Your task to perform on an android device: Open the gallery Image 0: 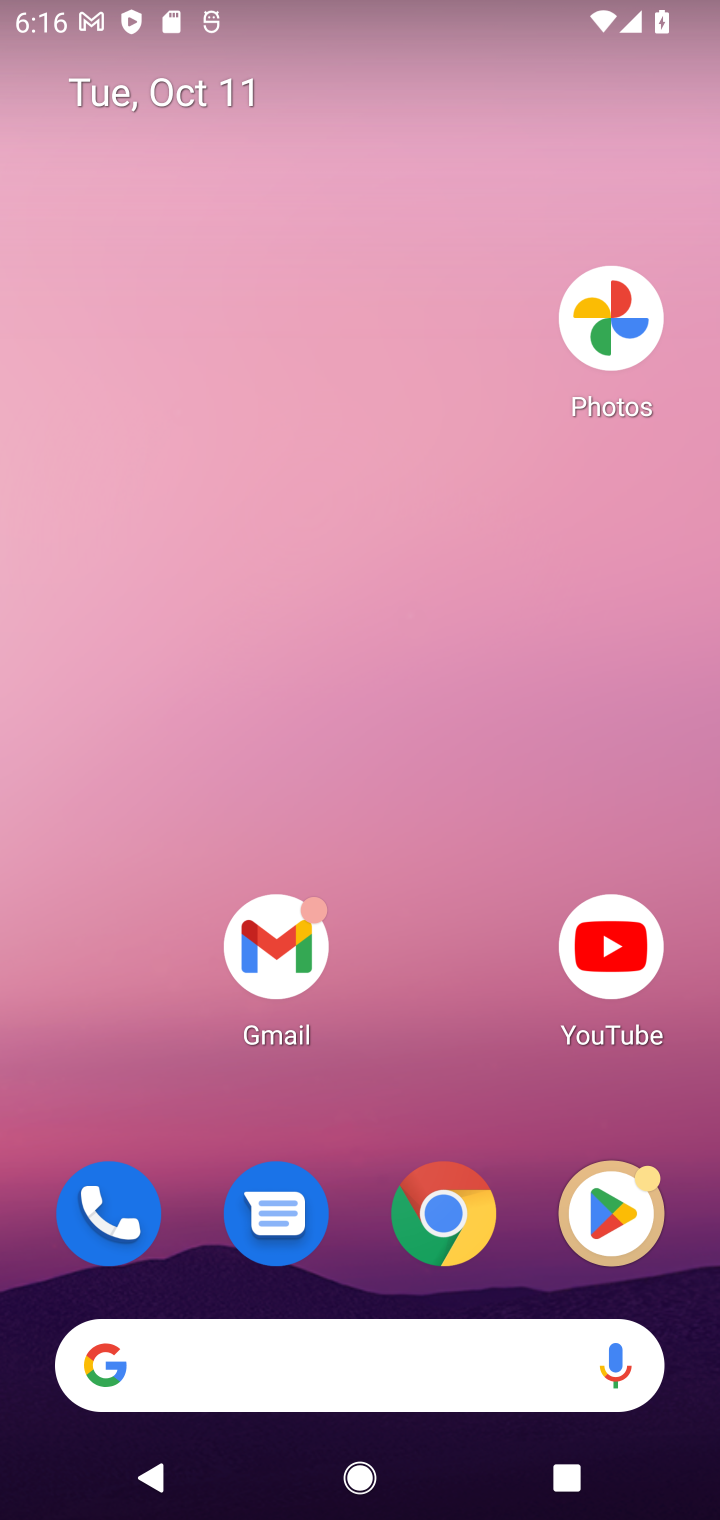
Step 0: press home button
Your task to perform on an android device: Open the gallery Image 1: 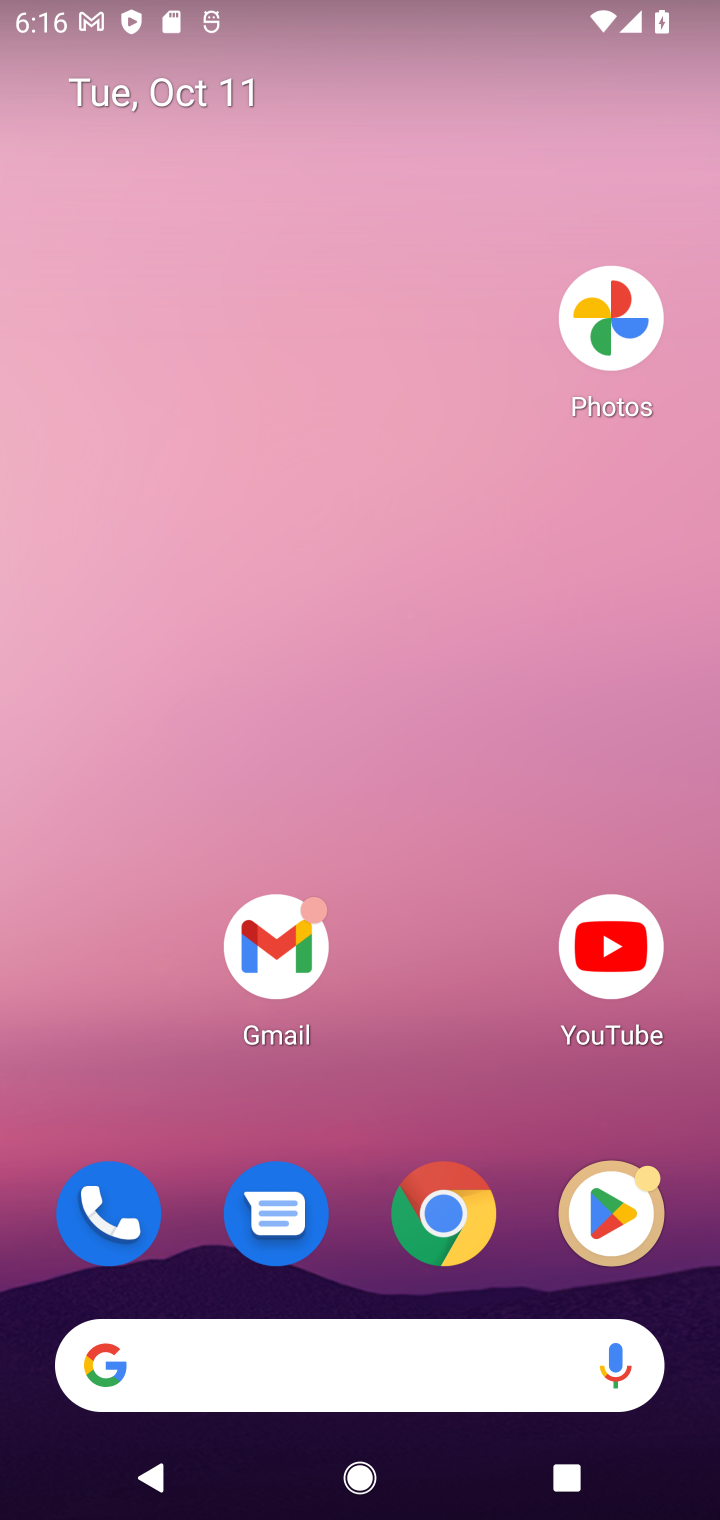
Step 1: drag from (368, 1262) to (427, 136)
Your task to perform on an android device: Open the gallery Image 2: 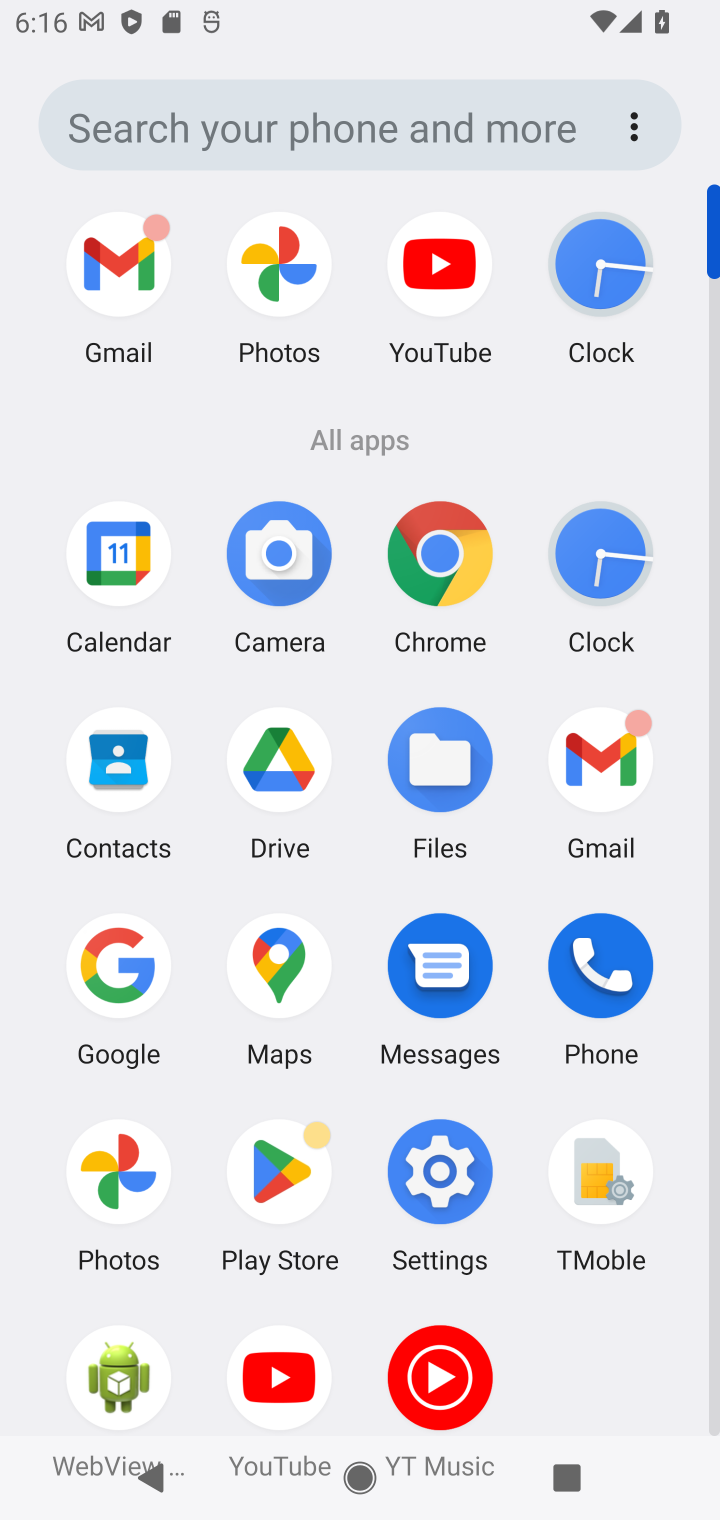
Step 2: click (433, 557)
Your task to perform on an android device: Open the gallery Image 3: 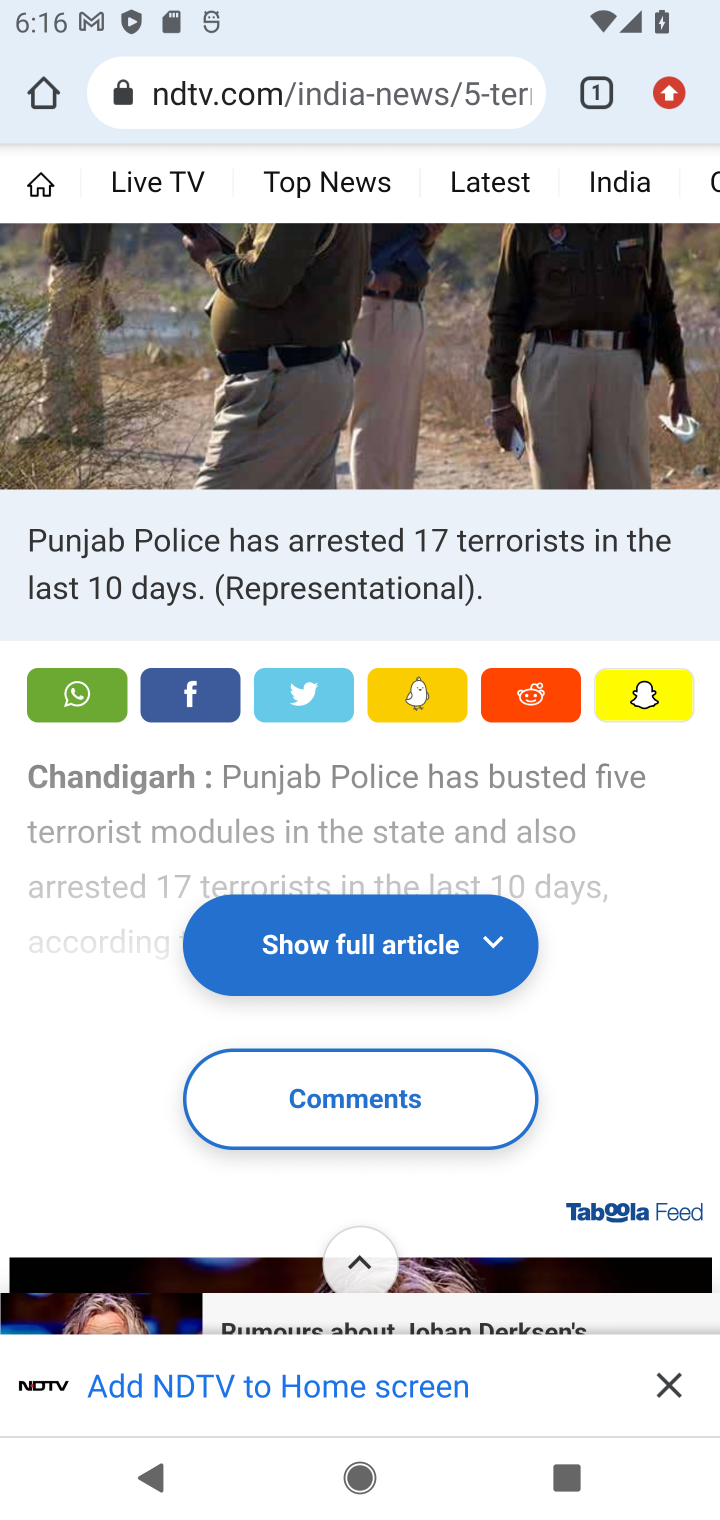
Step 3: click (363, 110)
Your task to perform on an android device: Open the gallery Image 4: 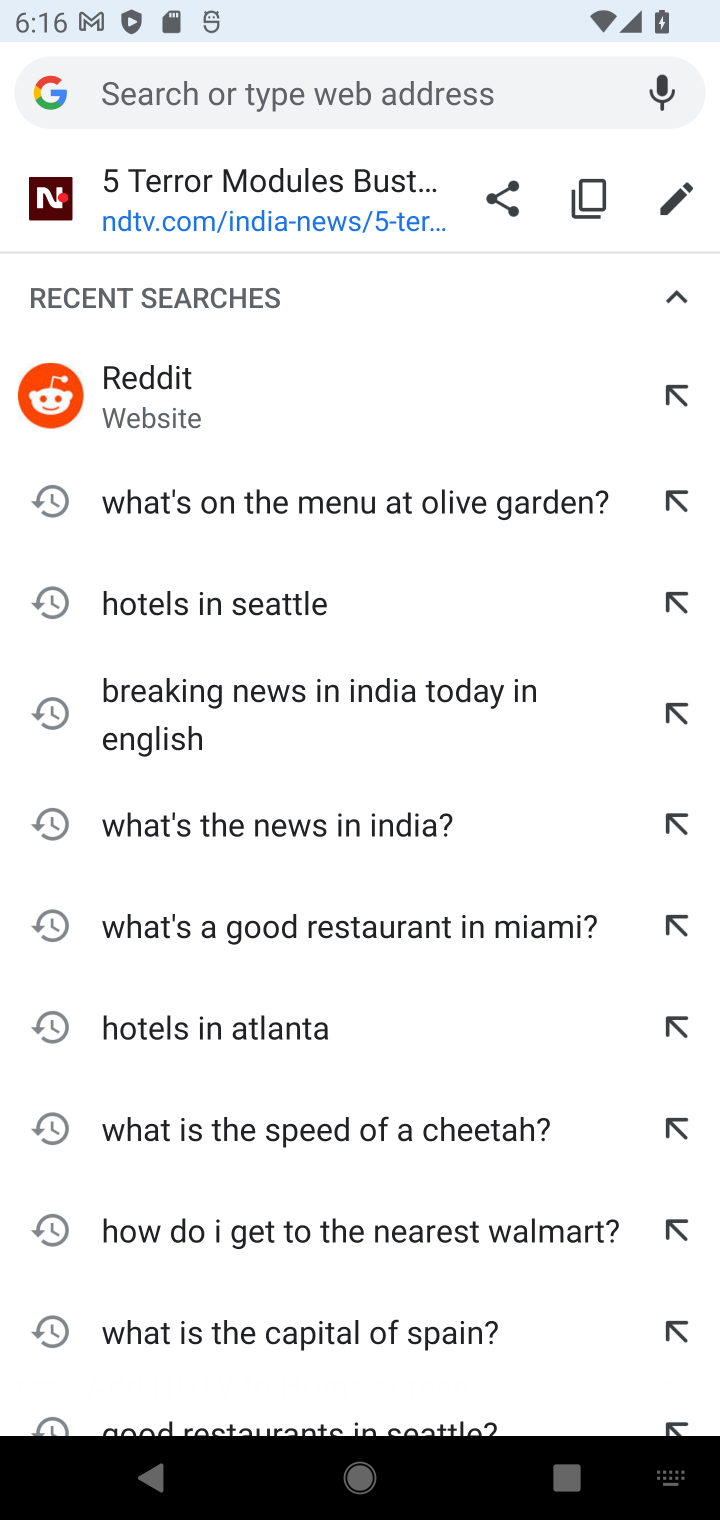
Step 4: type "What's the weather like in Paris?"
Your task to perform on an android device: Open the gallery Image 5: 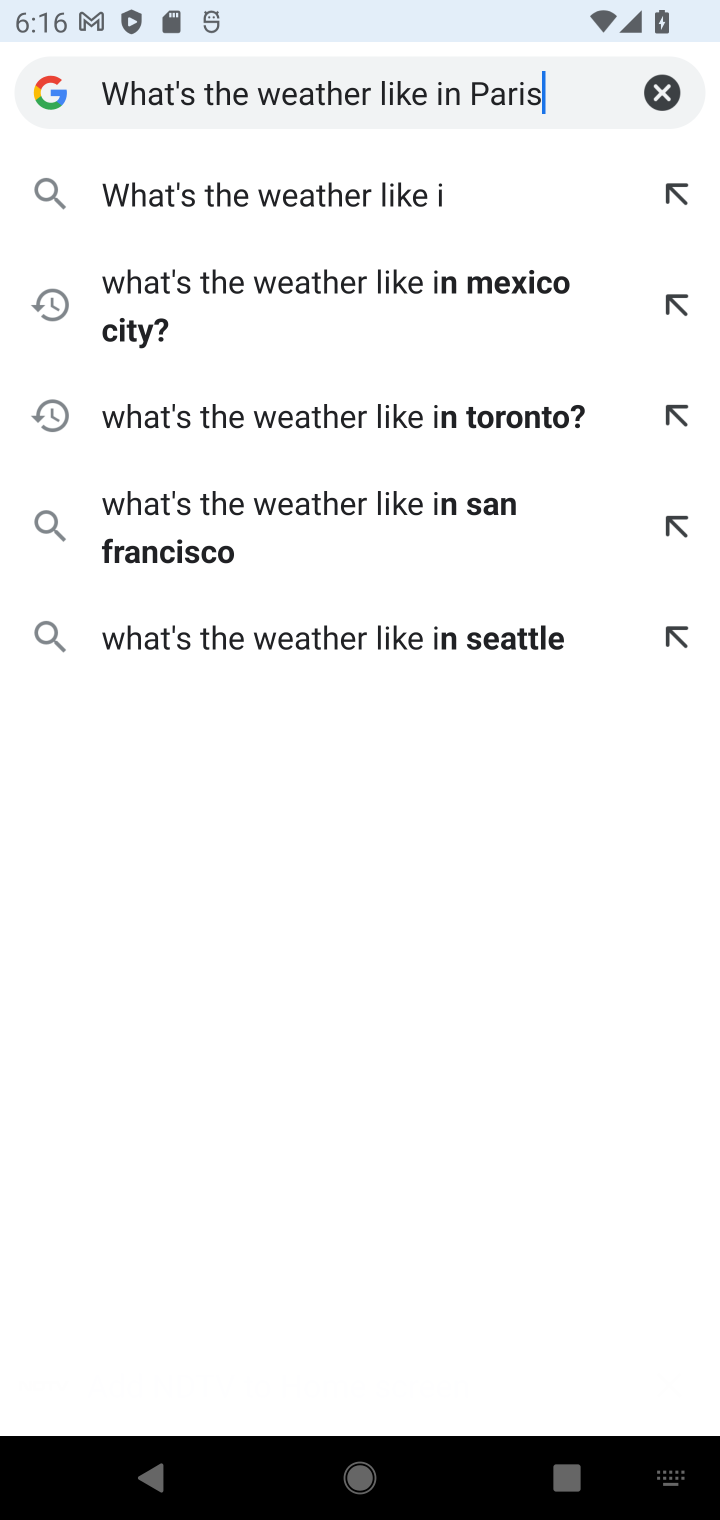
Step 5: type ""
Your task to perform on an android device: Open the gallery Image 6: 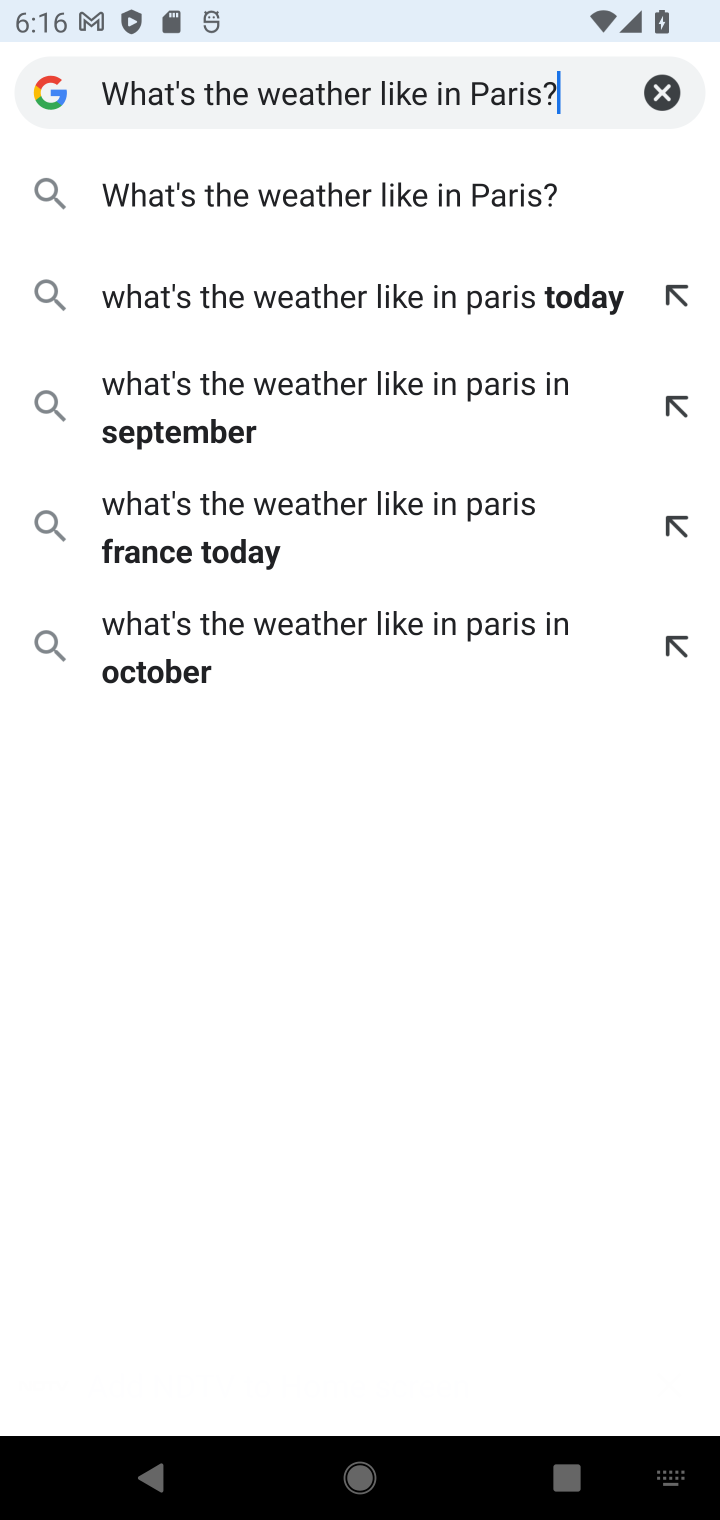
Step 6: press enter
Your task to perform on an android device: Open the gallery Image 7: 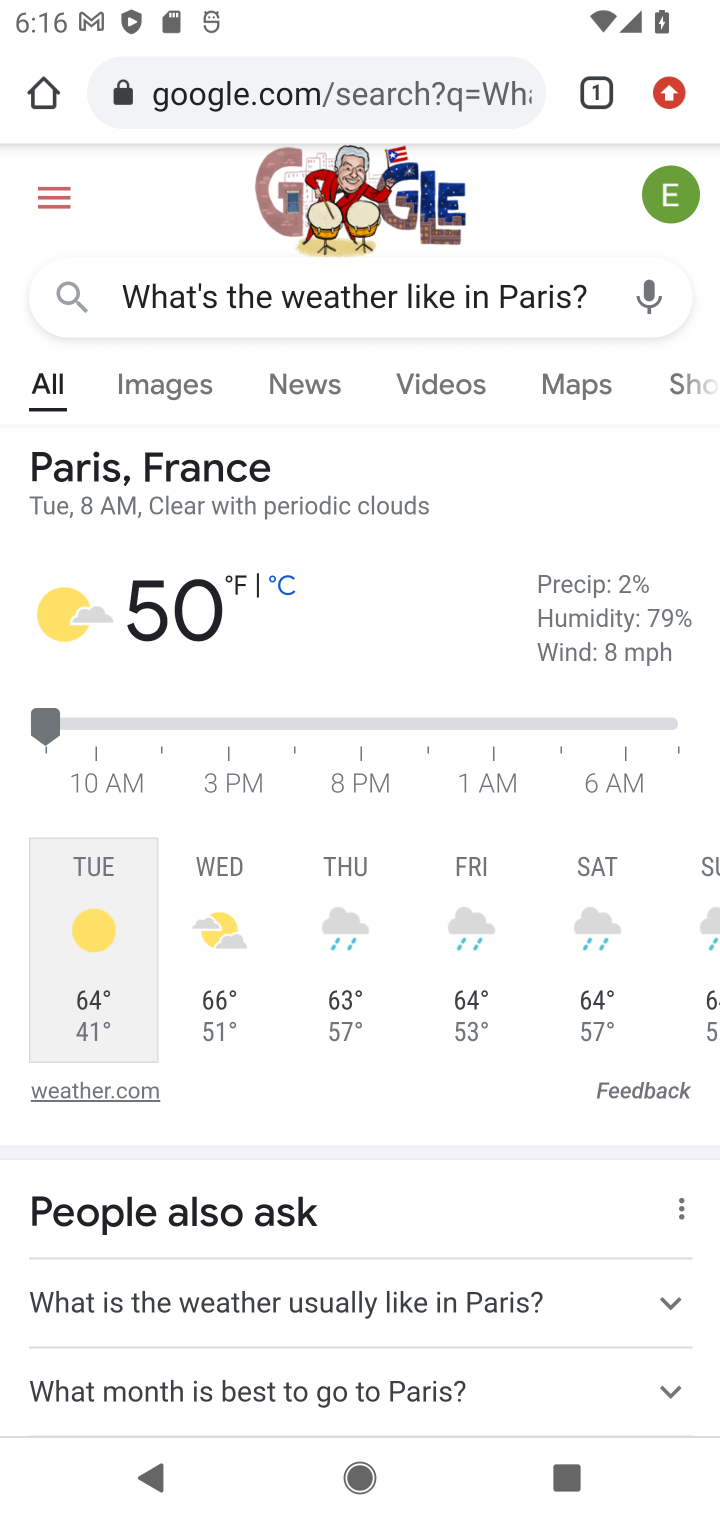
Step 7: drag from (55, 729) to (142, 722)
Your task to perform on an android device: Open the gallery Image 8: 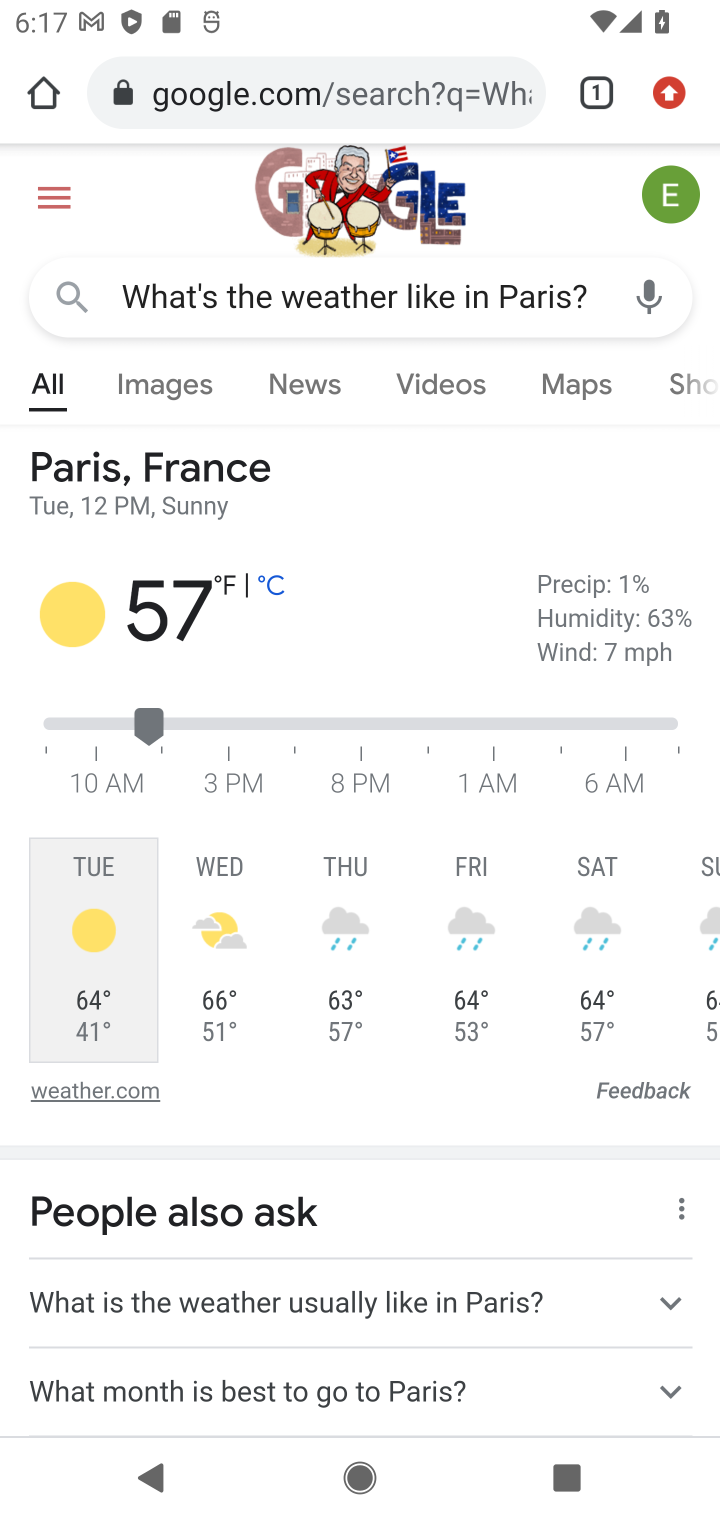
Step 8: drag from (140, 722) to (37, 707)
Your task to perform on an android device: Open the gallery Image 9: 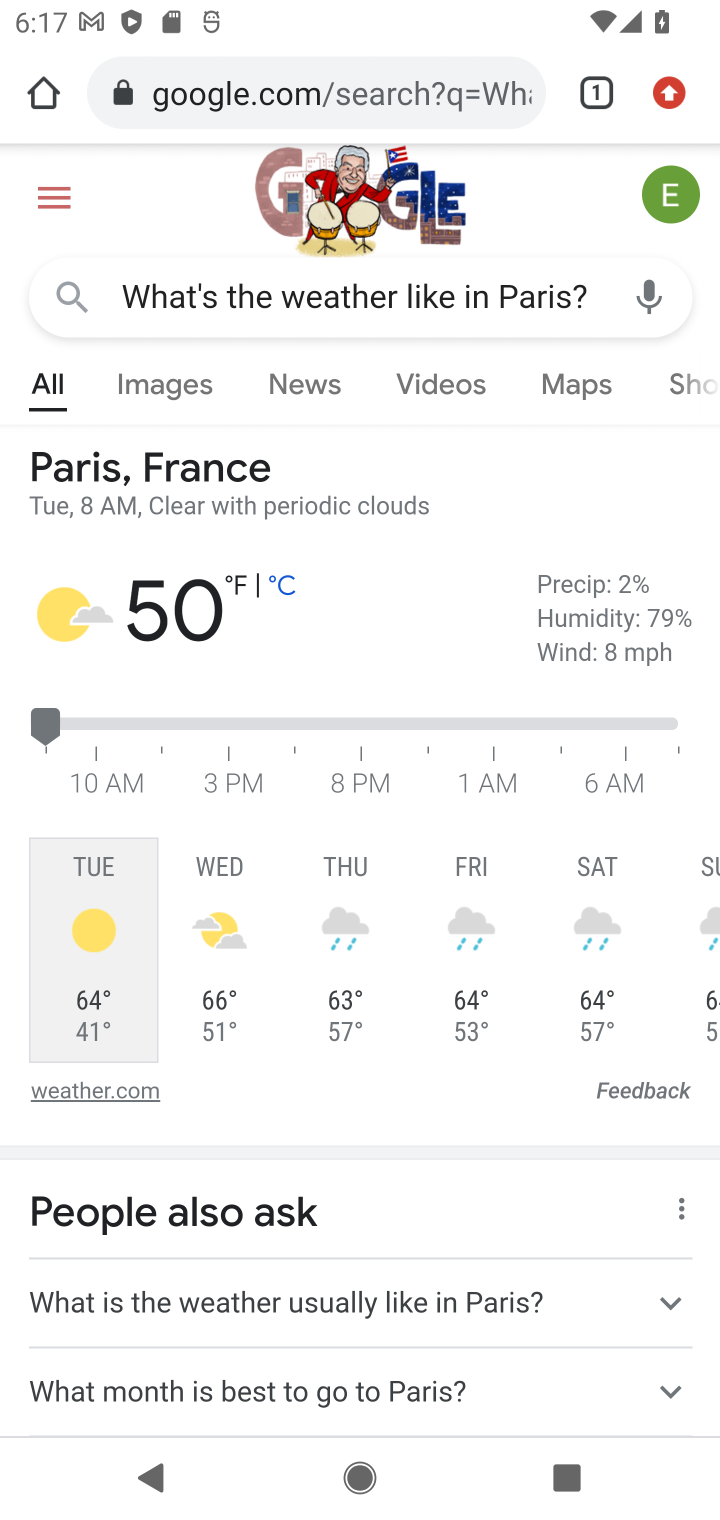
Step 9: press home button
Your task to perform on an android device: Open the gallery Image 10: 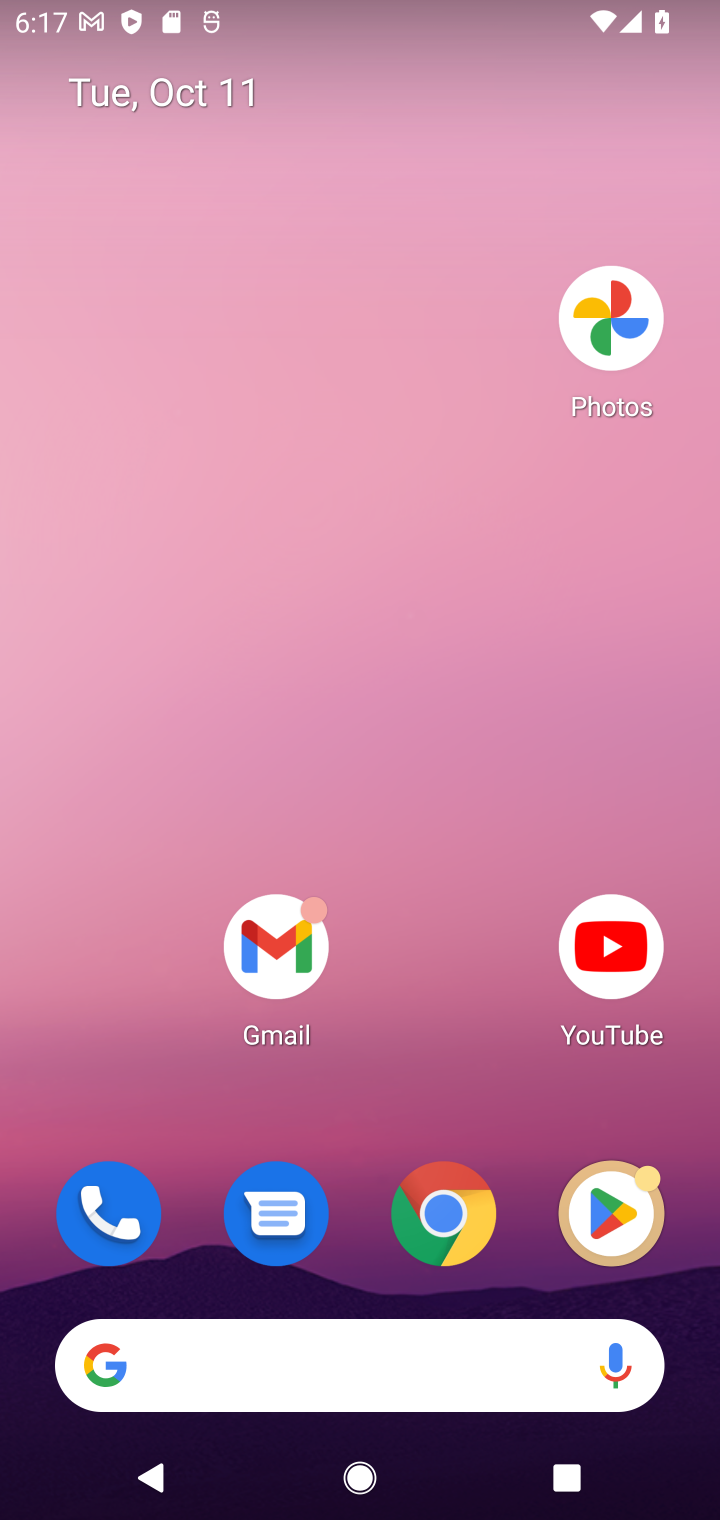
Step 10: drag from (388, 1147) to (468, 104)
Your task to perform on an android device: Open the gallery Image 11: 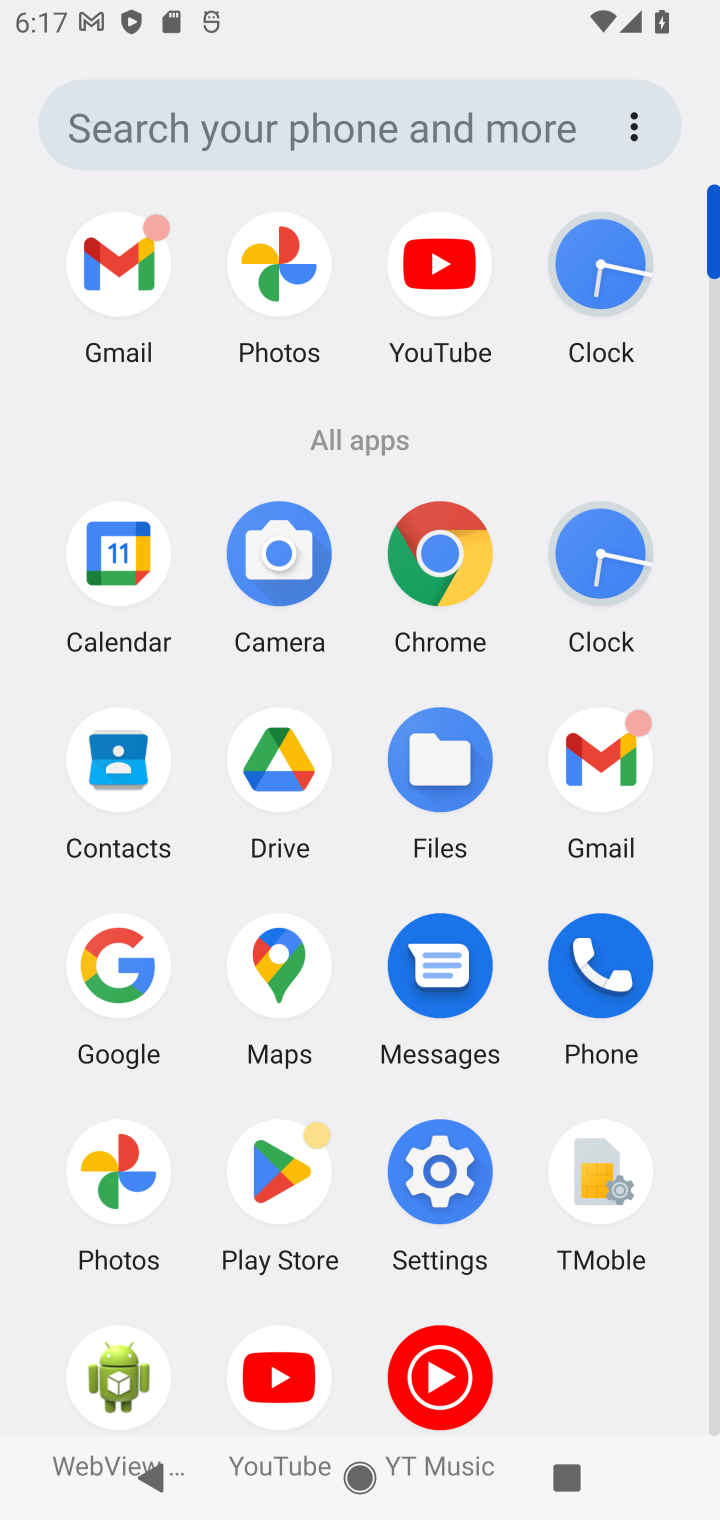
Step 11: click (388, 751)
Your task to perform on an android device: Open the gallery Image 12: 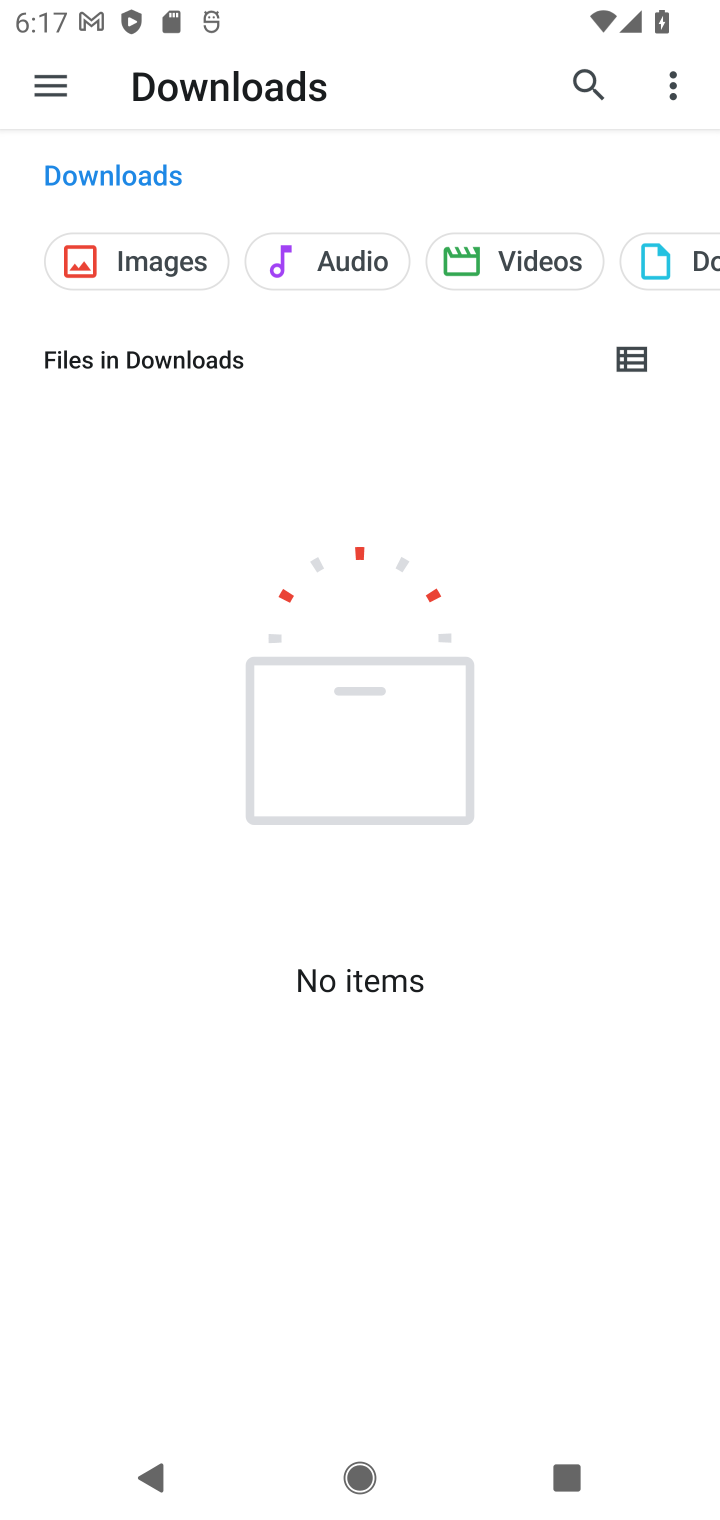
Step 12: click (119, 274)
Your task to perform on an android device: Open the gallery Image 13: 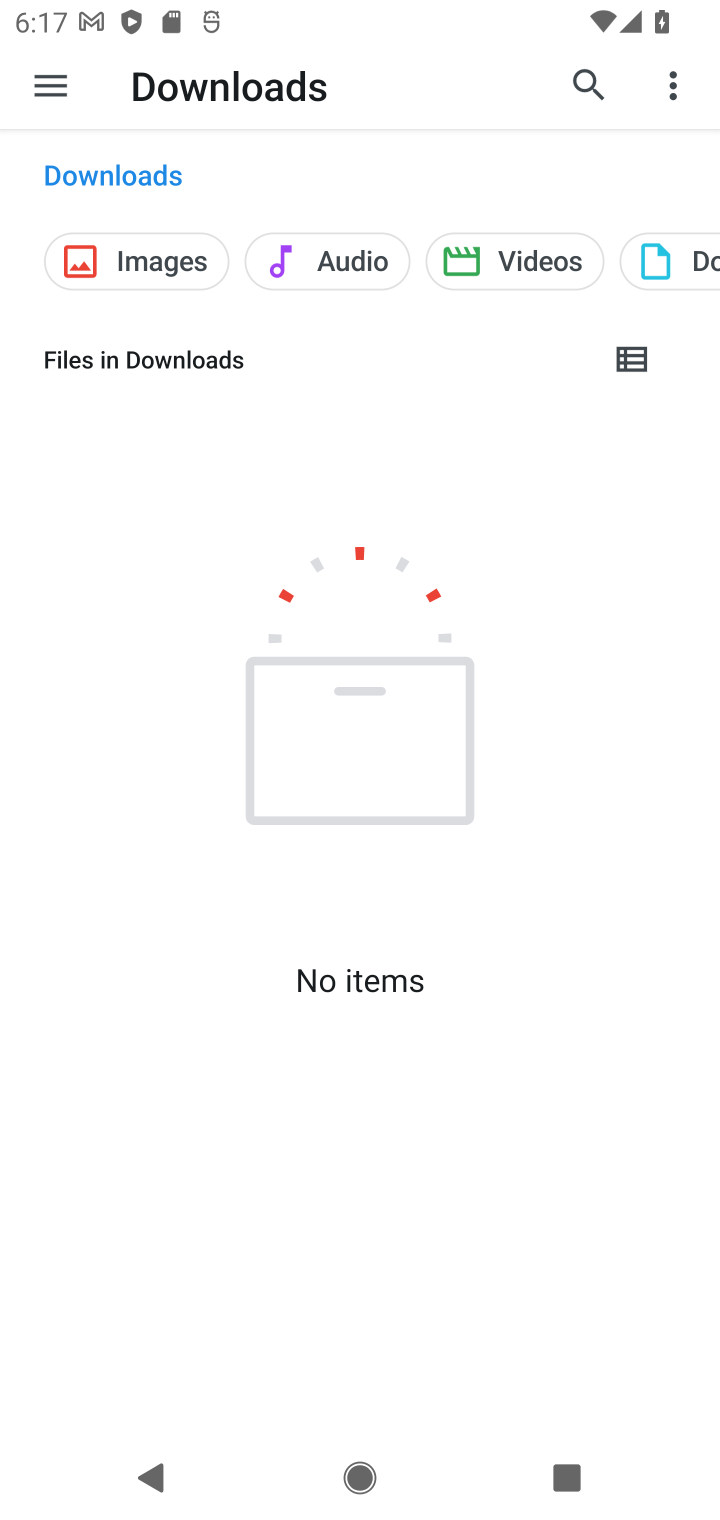
Step 13: click (363, 264)
Your task to perform on an android device: Open the gallery Image 14: 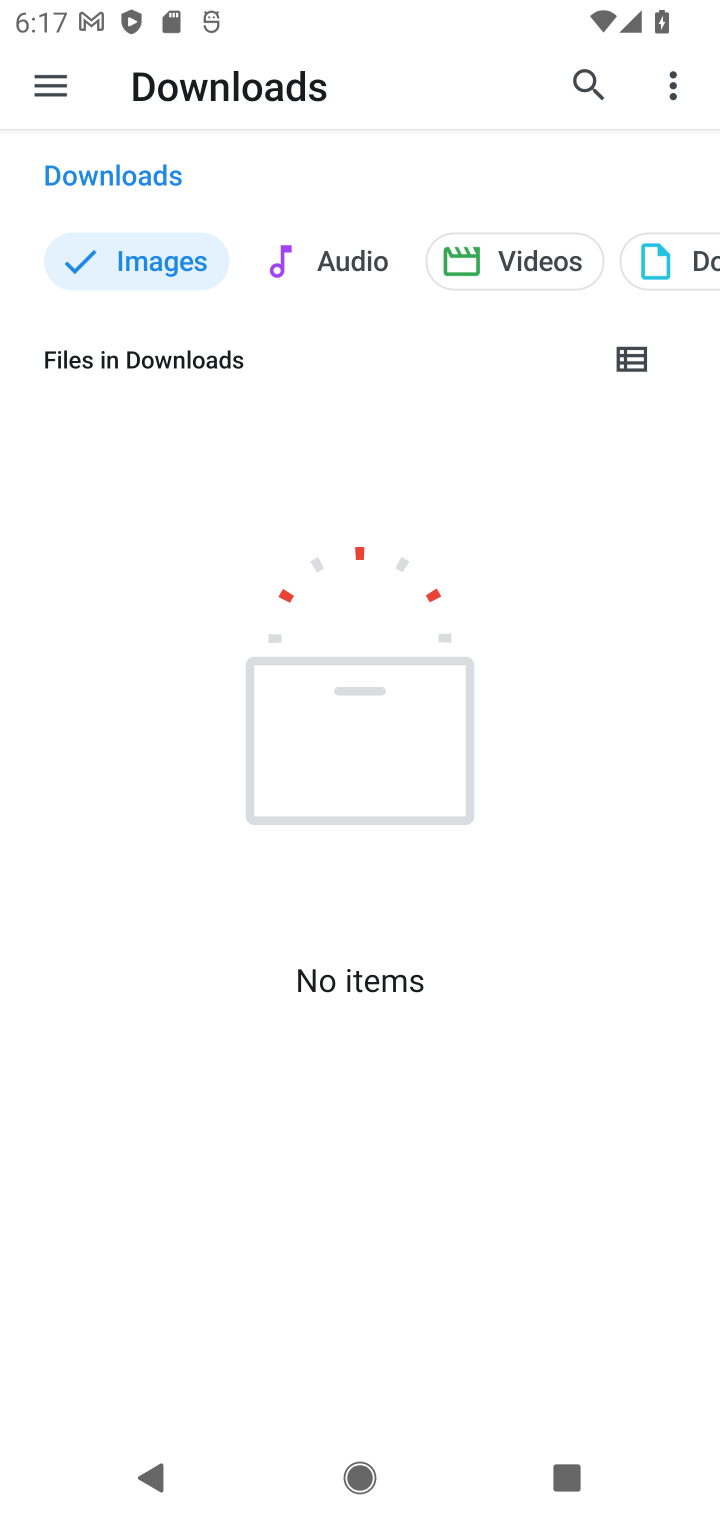
Step 14: click (509, 264)
Your task to perform on an android device: Open the gallery Image 15: 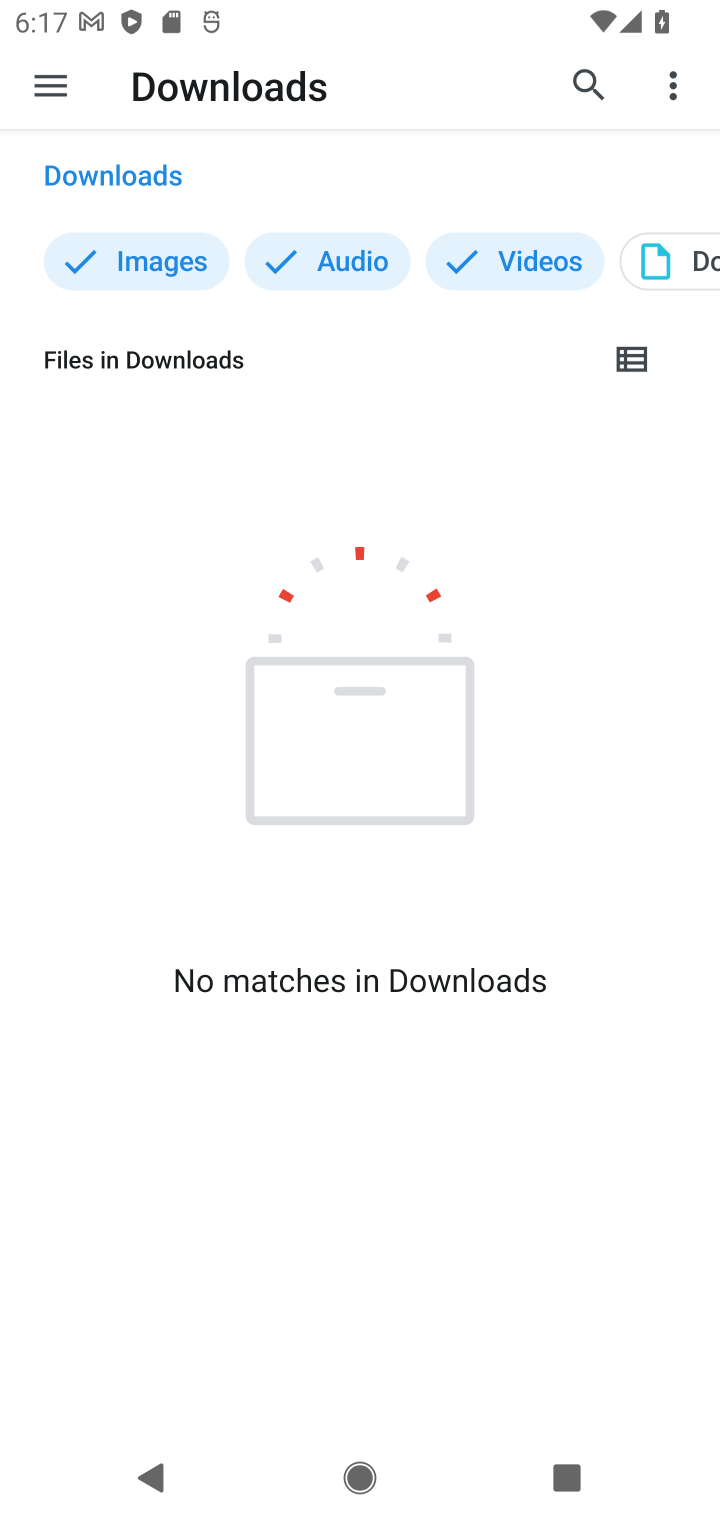
Step 15: press back button
Your task to perform on an android device: Open the gallery Image 16: 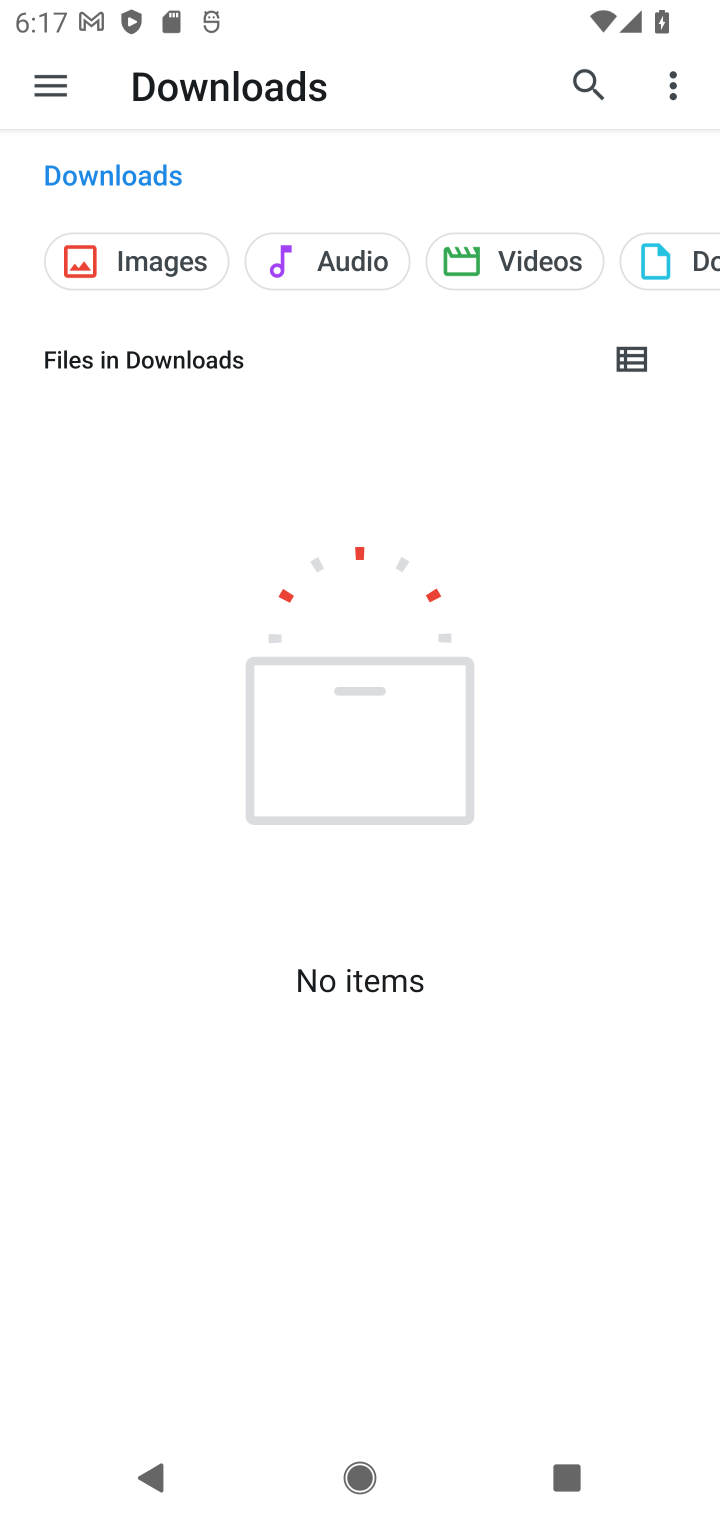
Step 16: press back button
Your task to perform on an android device: Open the gallery Image 17: 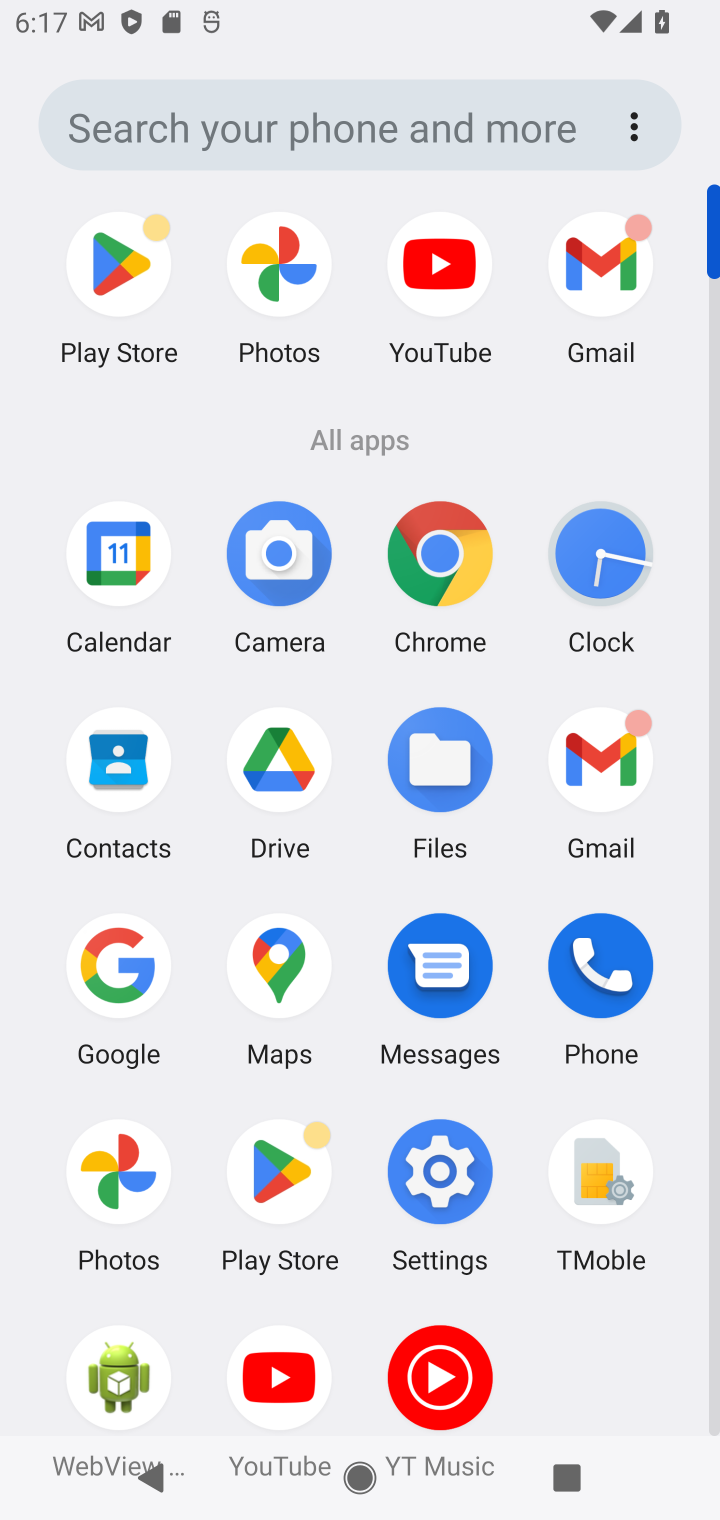
Step 17: click (277, 261)
Your task to perform on an android device: Open the gallery Image 18: 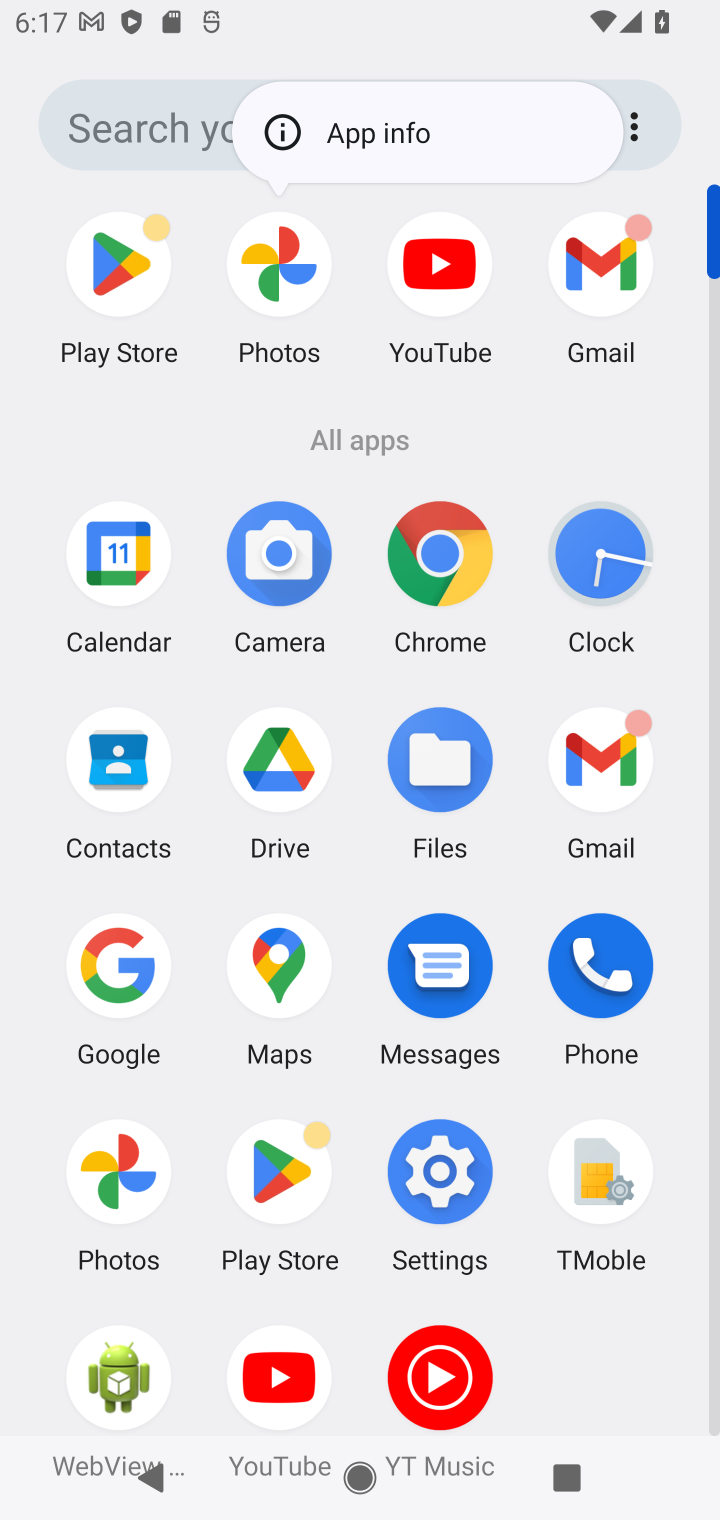
Step 18: click (296, 309)
Your task to perform on an android device: Open the gallery Image 19: 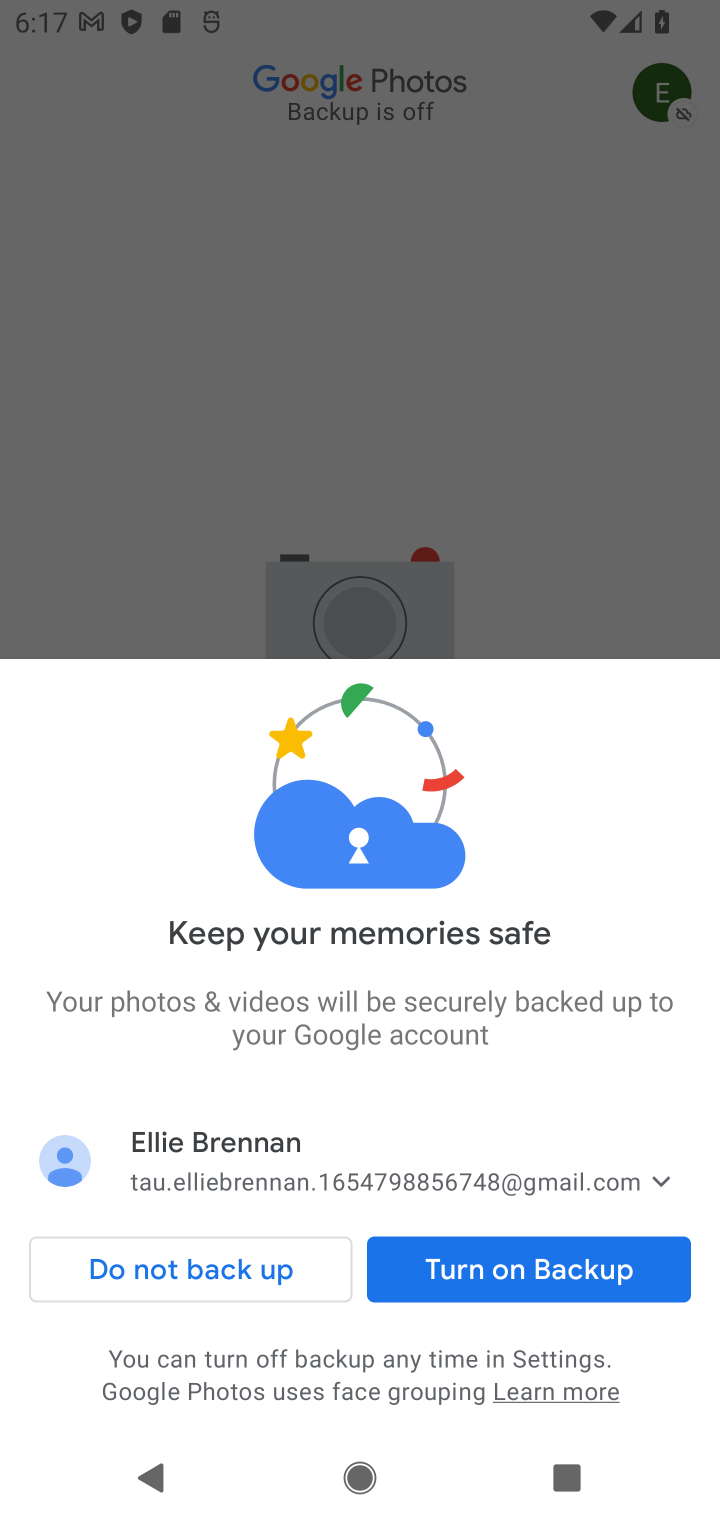
Step 19: click (247, 1248)
Your task to perform on an android device: Open the gallery Image 20: 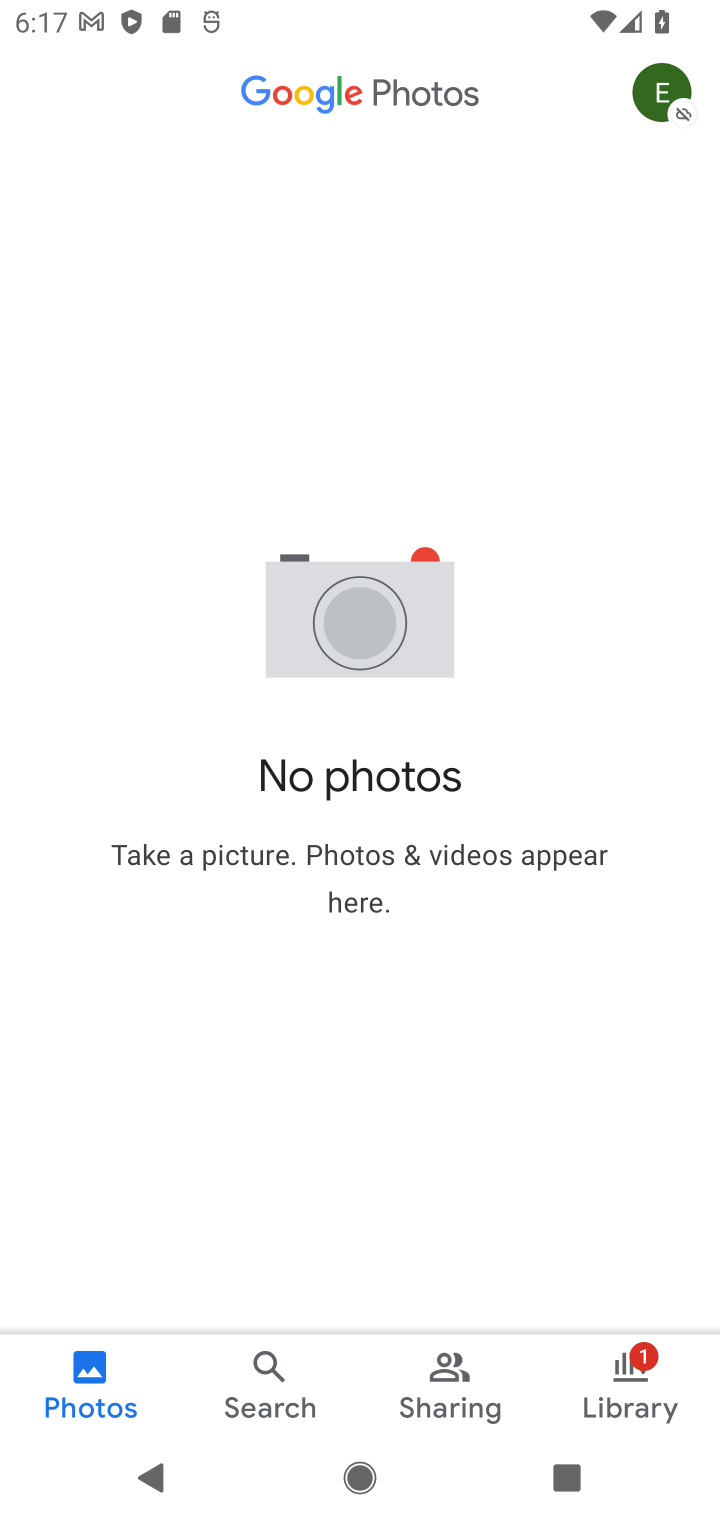
Step 20: click (242, 1417)
Your task to perform on an android device: Open the gallery Image 21: 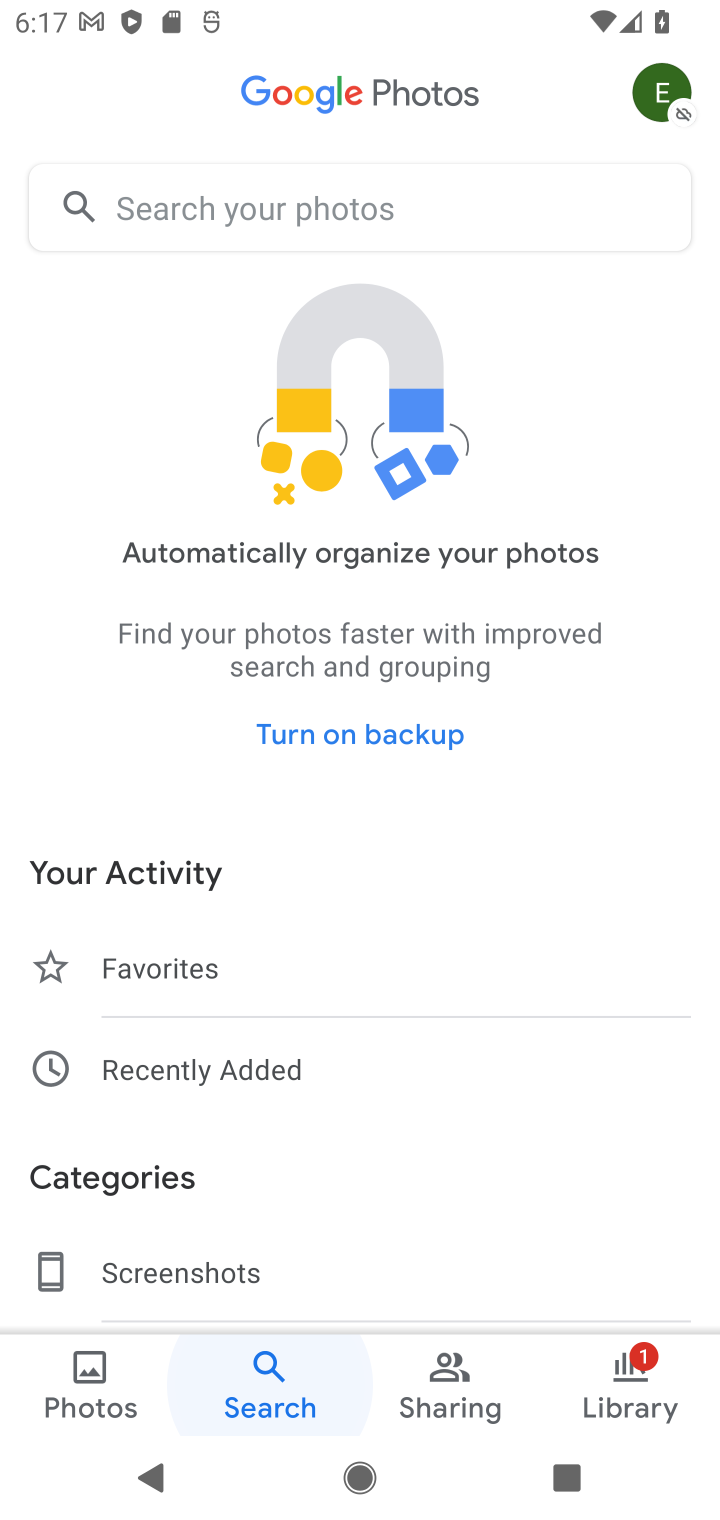
Step 21: click (478, 1389)
Your task to perform on an android device: Open the gallery Image 22: 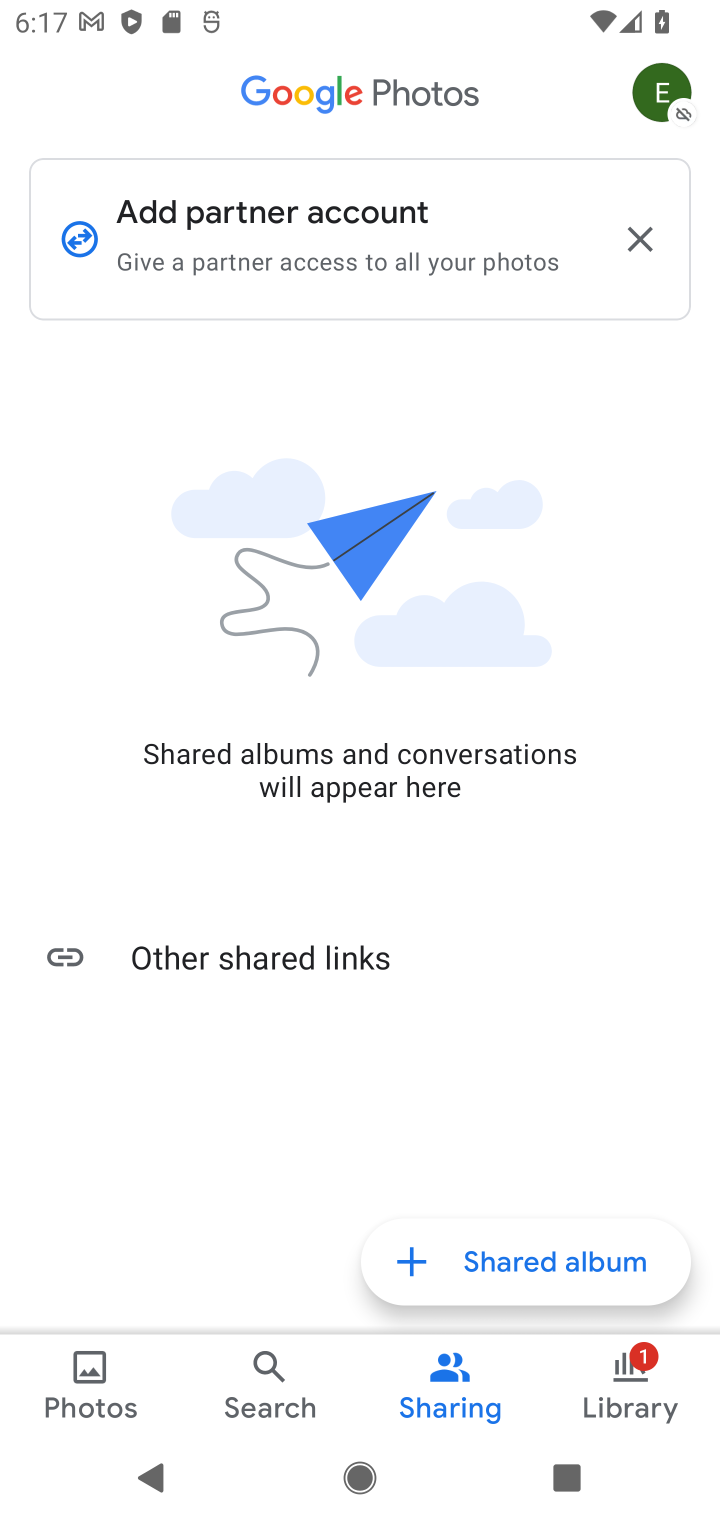
Step 22: click (489, 1373)
Your task to perform on an android device: Open the gallery Image 23: 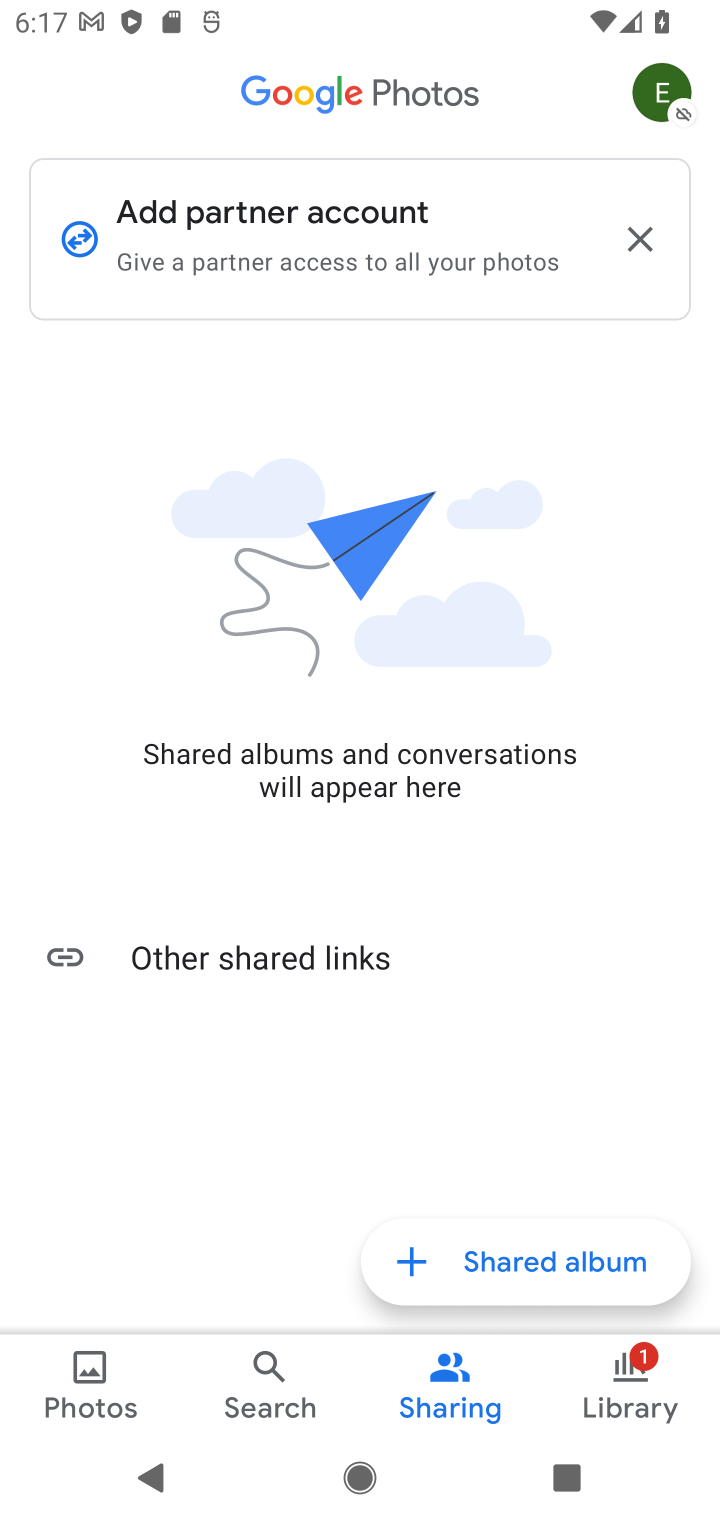
Step 23: click (628, 1364)
Your task to perform on an android device: Open the gallery Image 24: 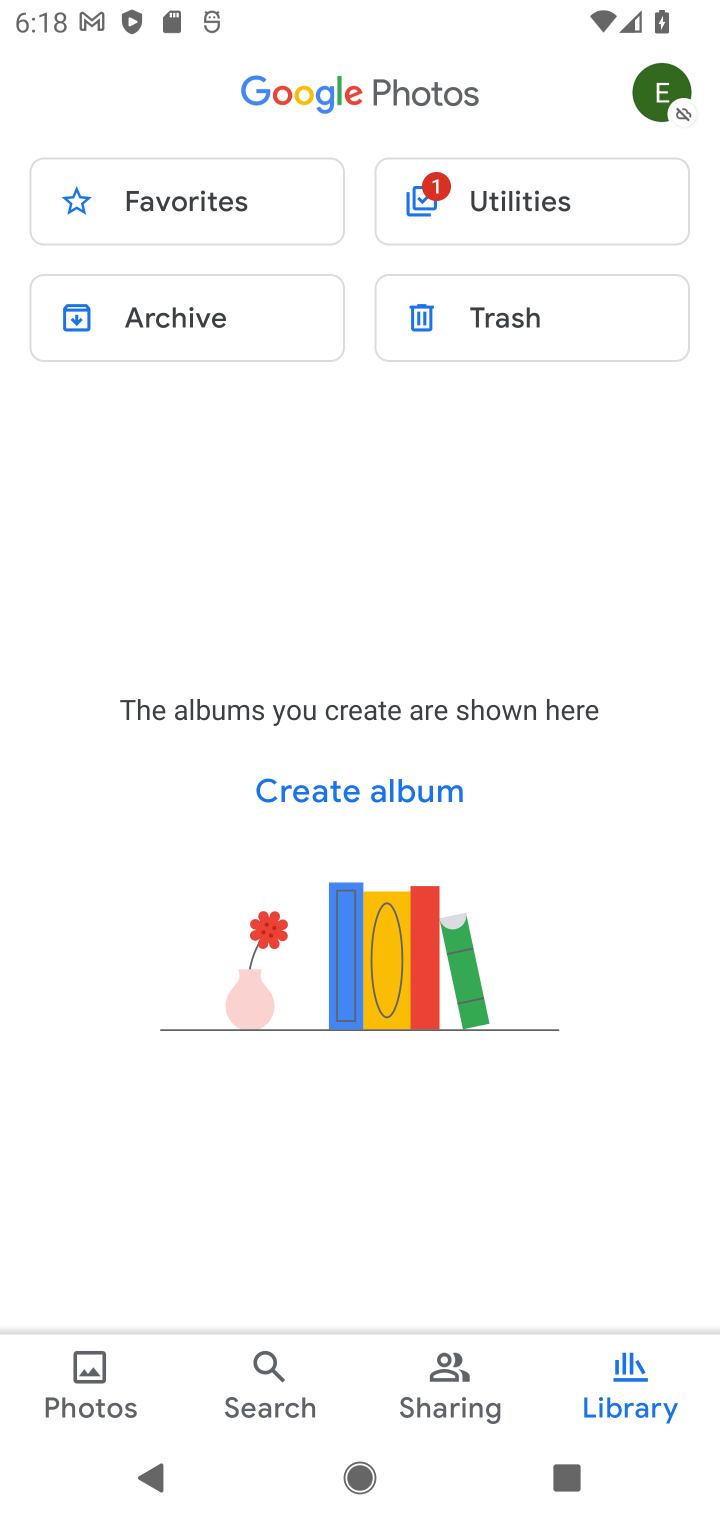
Step 24: click (502, 189)
Your task to perform on an android device: Open the gallery Image 25: 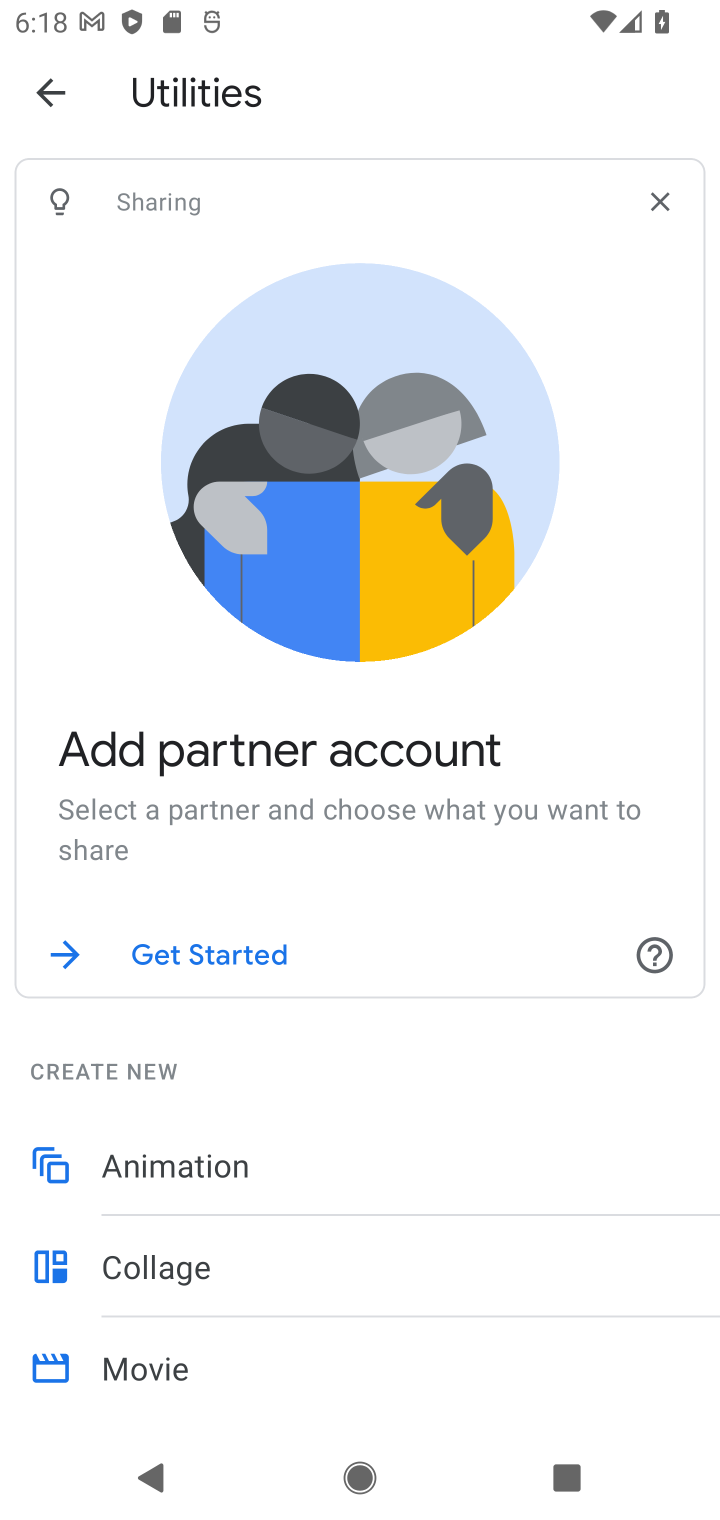
Step 25: drag from (447, 641) to (437, 187)
Your task to perform on an android device: Open the gallery Image 26: 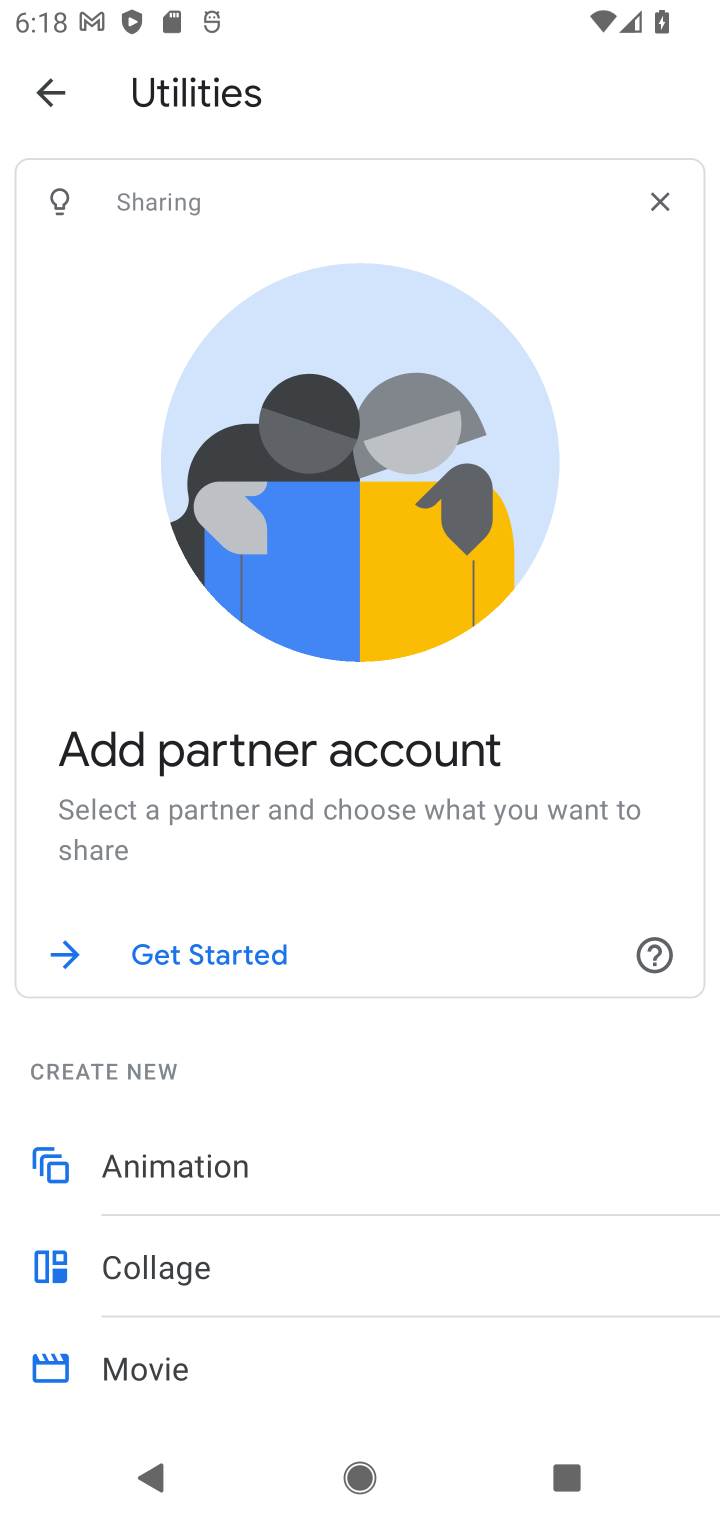
Step 26: drag from (393, 820) to (396, 70)
Your task to perform on an android device: Open the gallery Image 27: 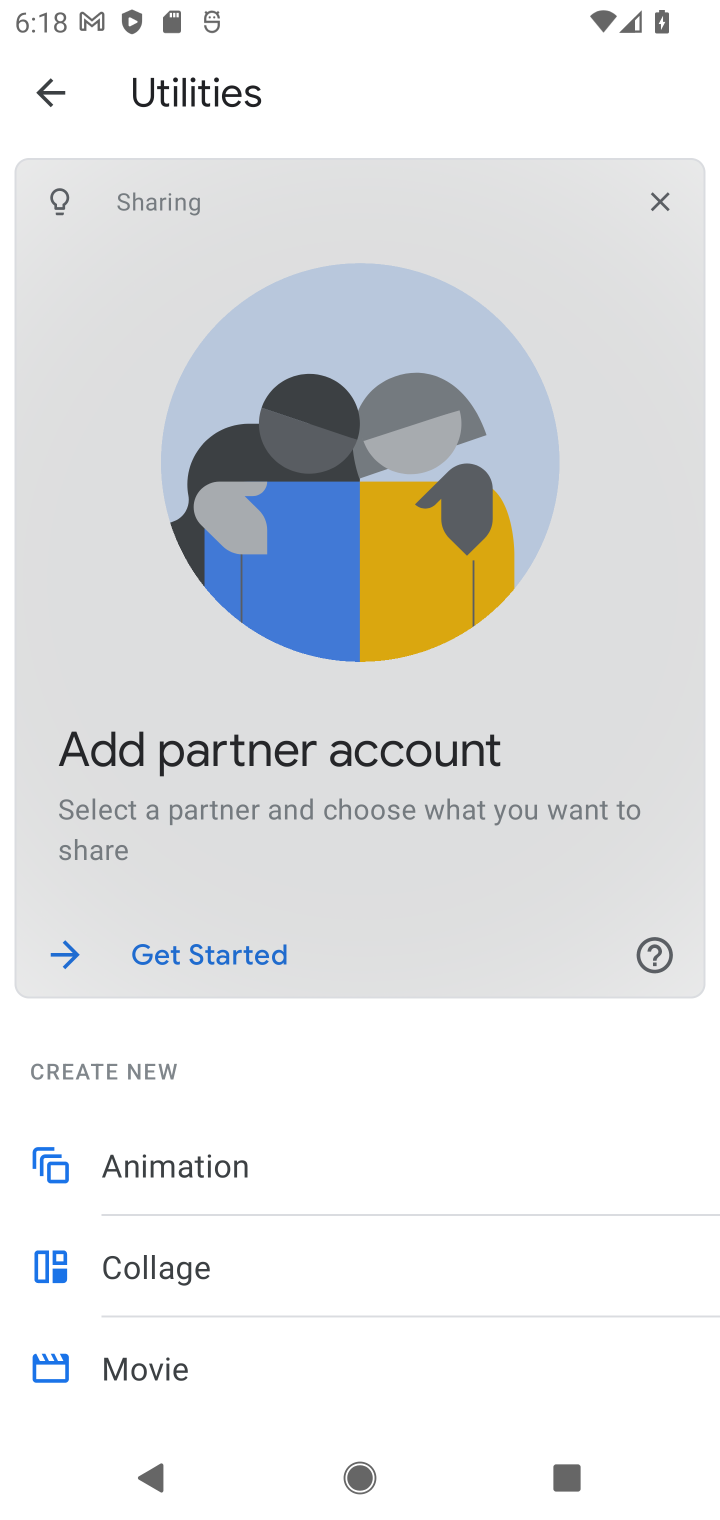
Step 27: click (422, 85)
Your task to perform on an android device: Open the gallery Image 28: 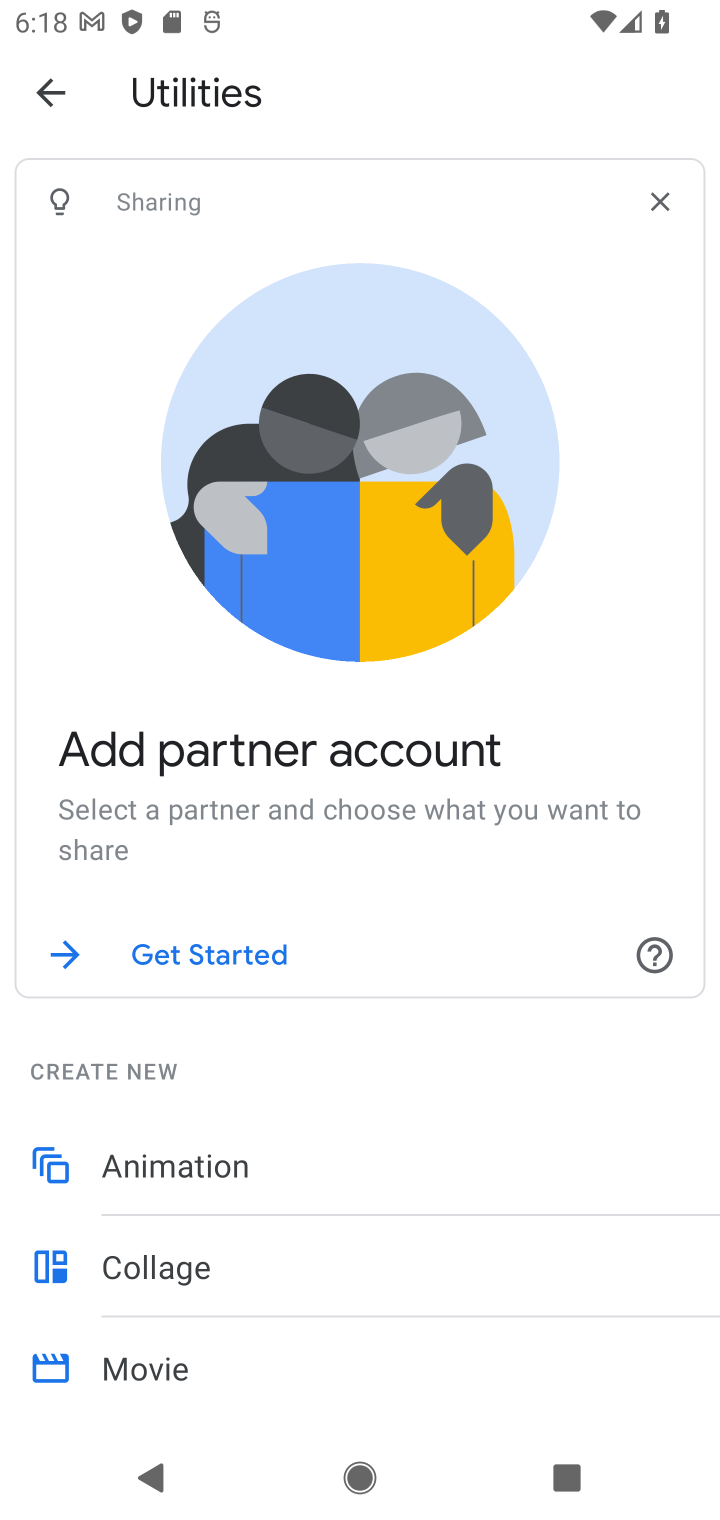
Step 28: click (50, 90)
Your task to perform on an android device: Open the gallery Image 29: 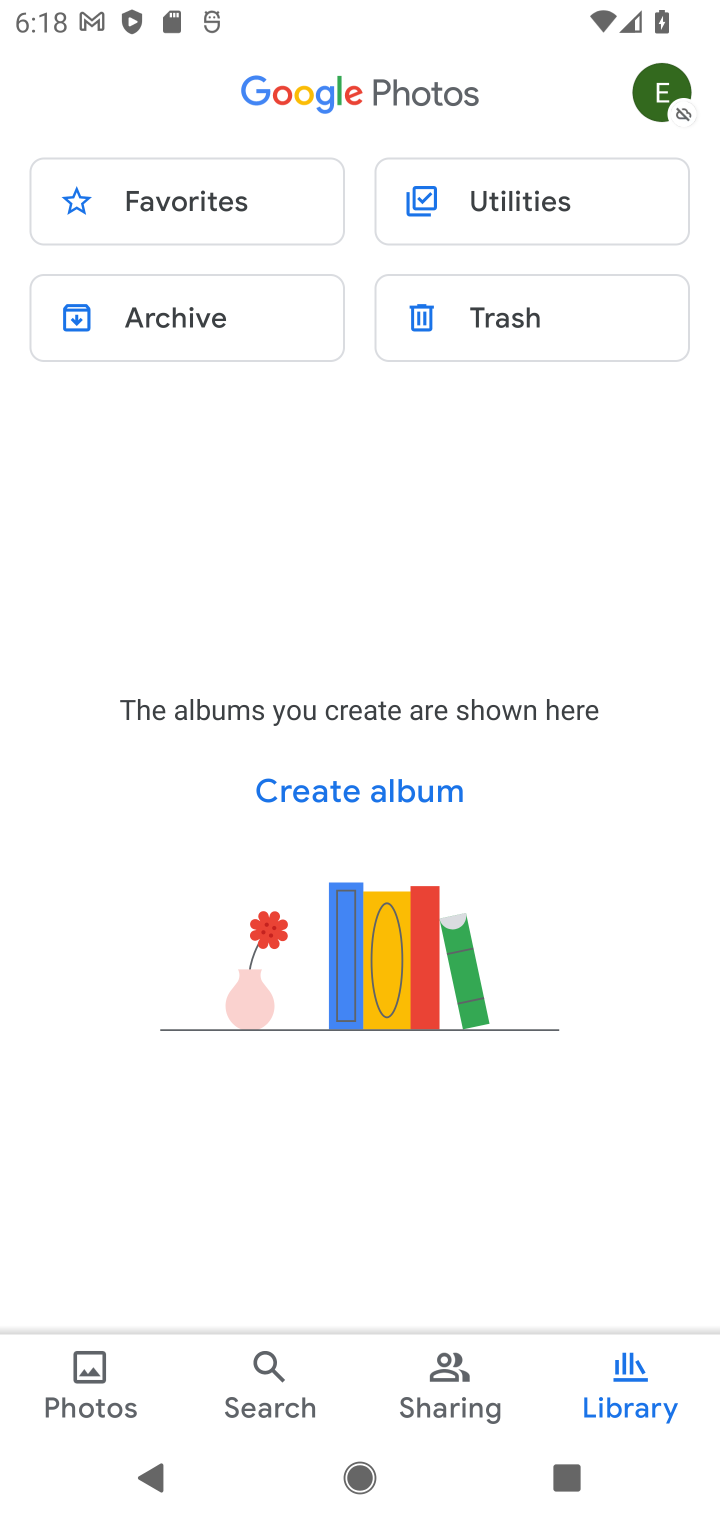
Step 29: click (452, 1418)
Your task to perform on an android device: Open the gallery Image 30: 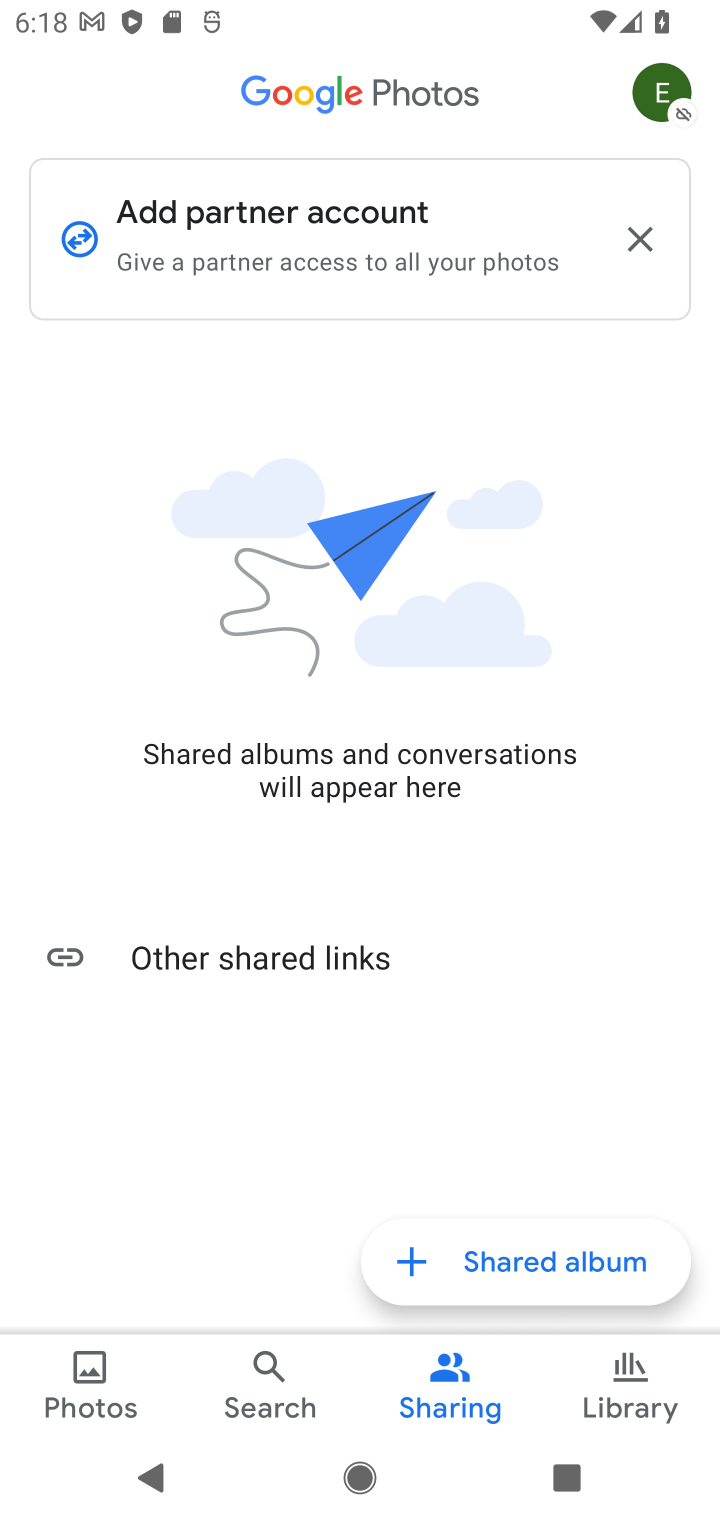
Step 30: drag from (451, 1055) to (381, 478)
Your task to perform on an android device: Open the gallery Image 31: 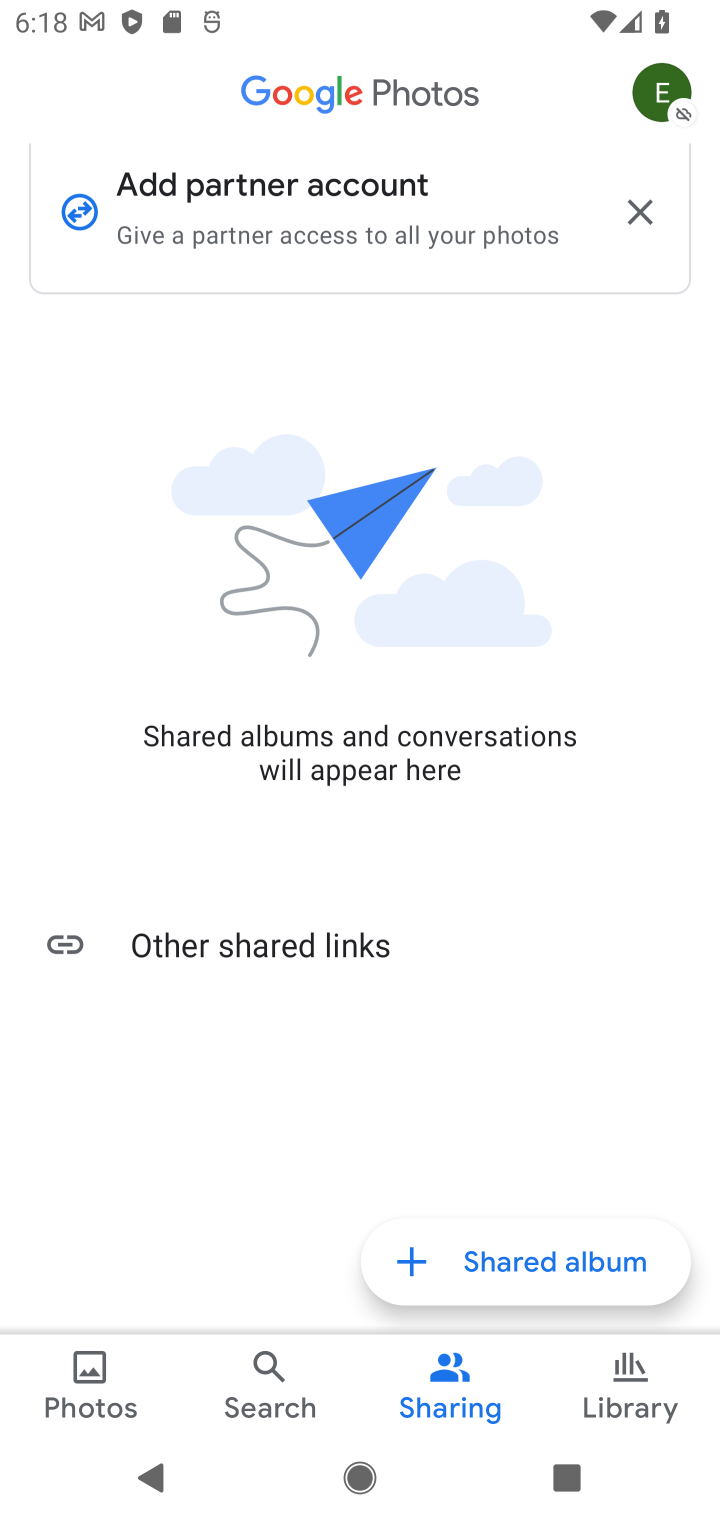
Step 31: click (91, 1355)
Your task to perform on an android device: Open the gallery Image 32: 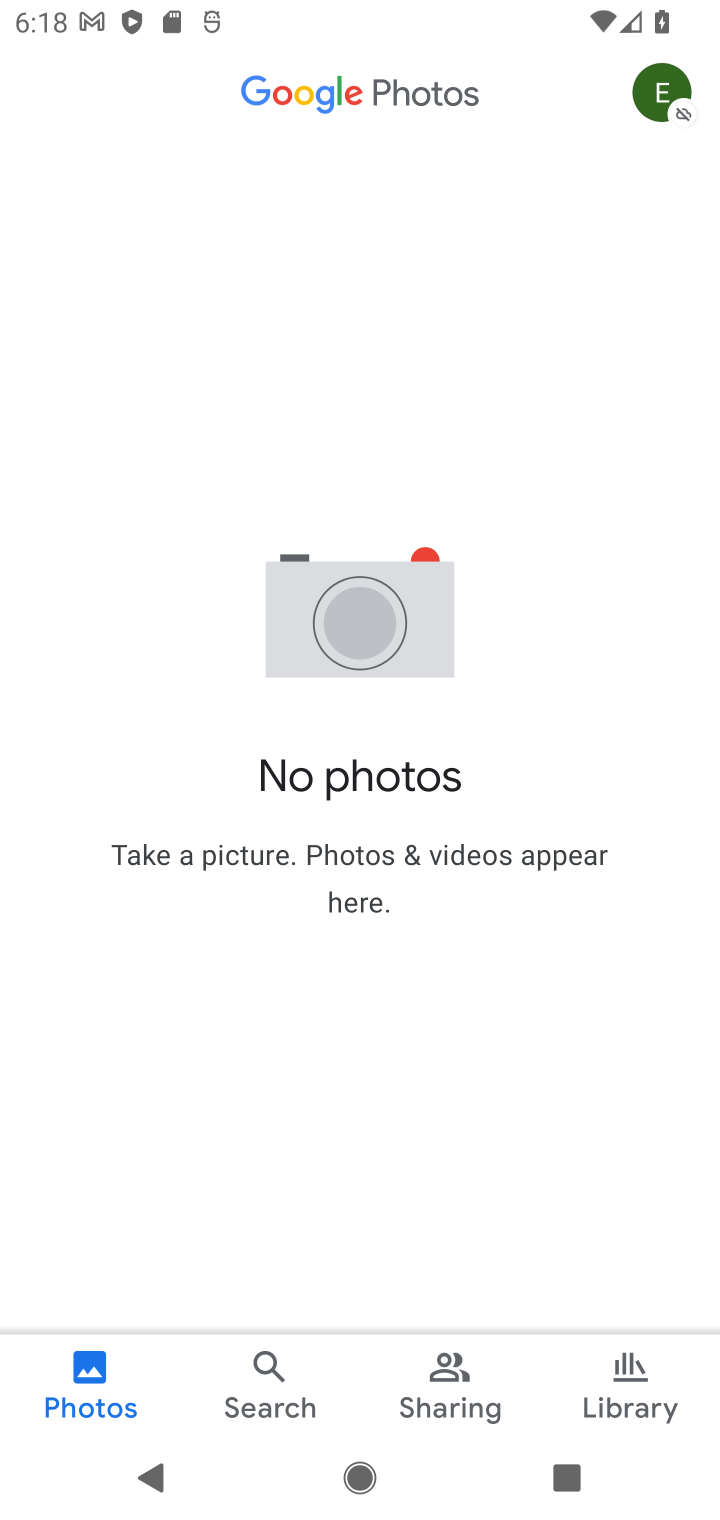
Step 32: task complete